Your task to perform on an android device: Add lg ultragear to the cart on amazon, then select checkout. Image 0: 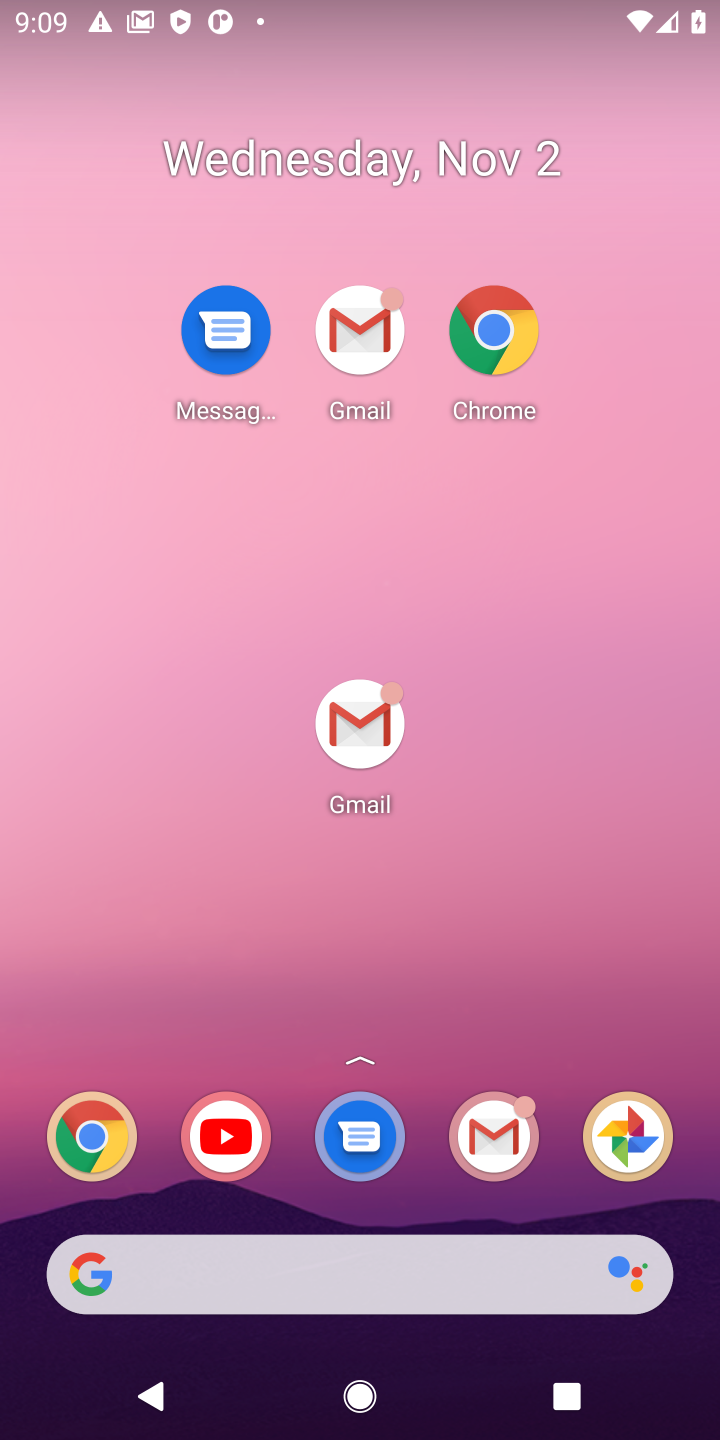
Step 0: drag from (175, 800) to (175, 571)
Your task to perform on an android device: Add lg ultragear to the cart on amazon, then select checkout. Image 1: 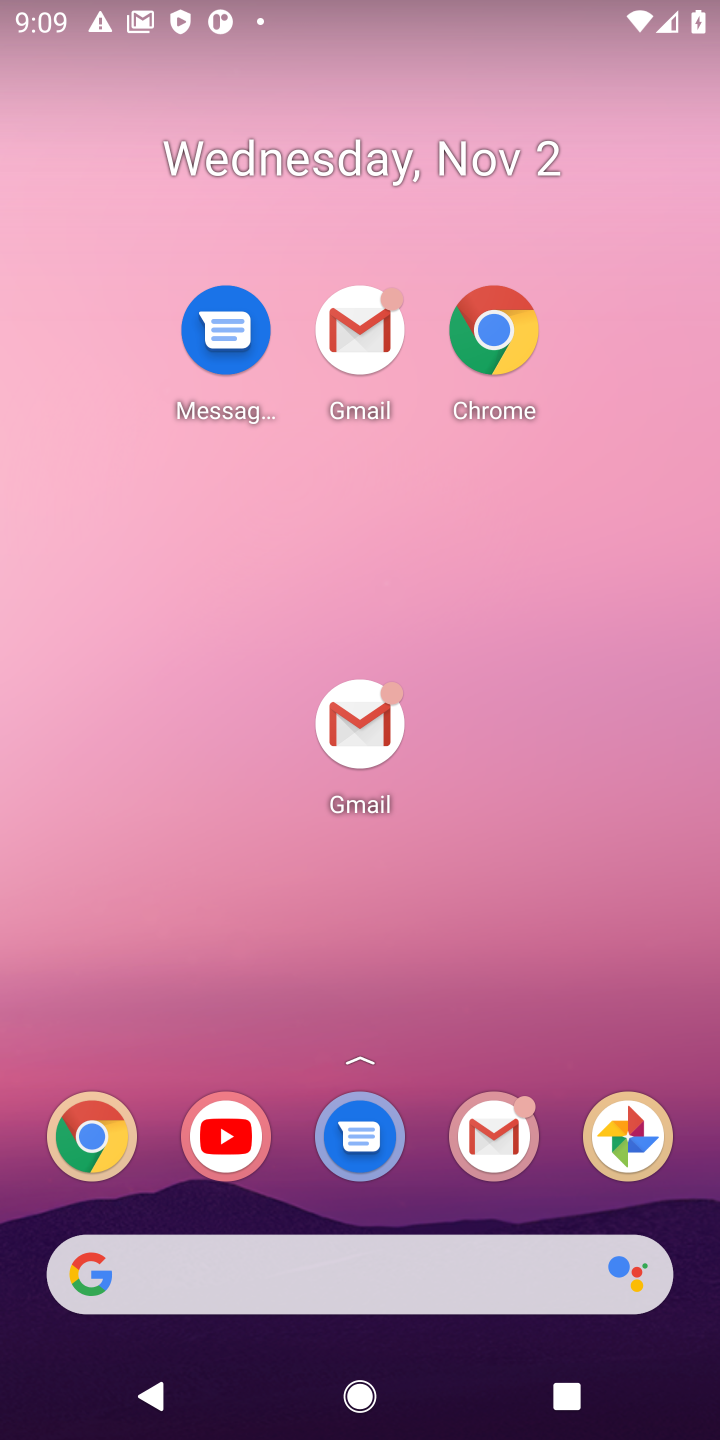
Step 1: drag from (218, 916) to (207, 162)
Your task to perform on an android device: Add lg ultragear to the cart on amazon, then select checkout. Image 2: 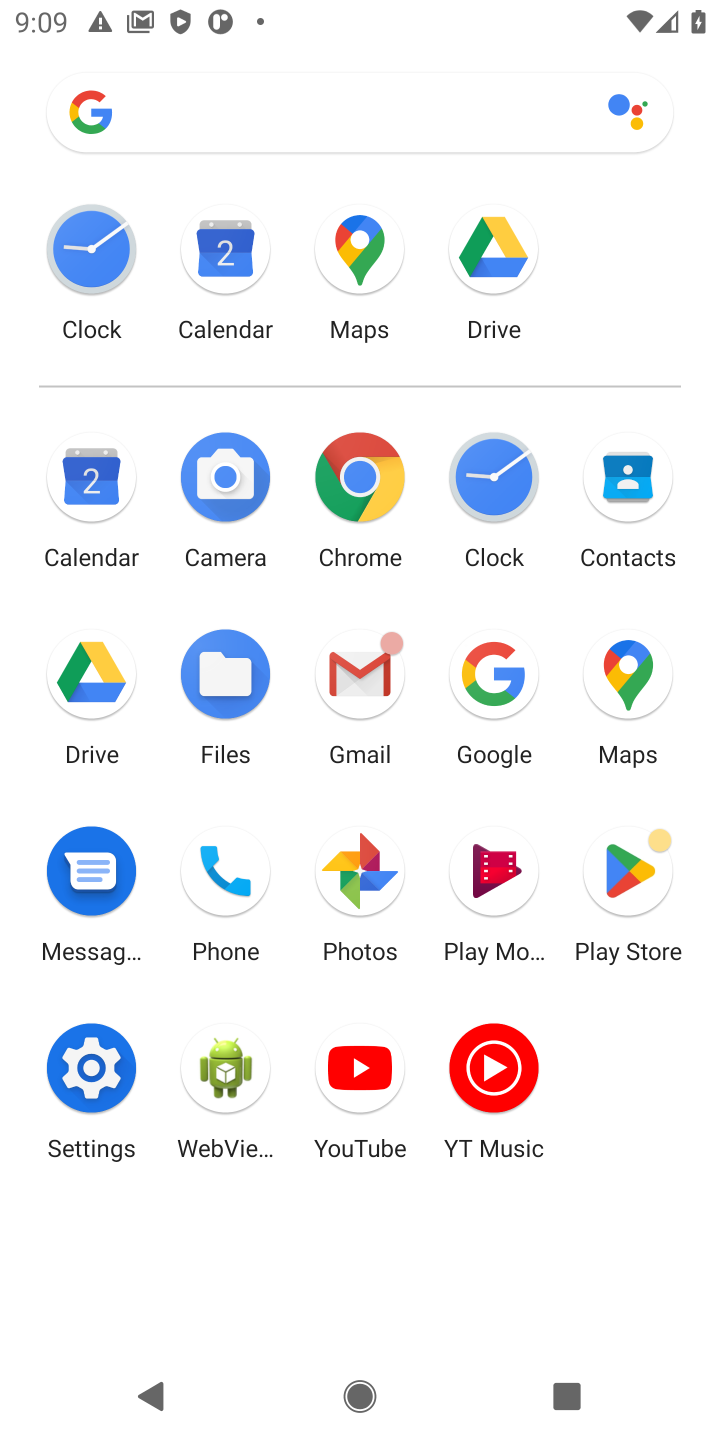
Step 2: click (492, 663)
Your task to perform on an android device: Add lg ultragear to the cart on amazon, then select checkout. Image 3: 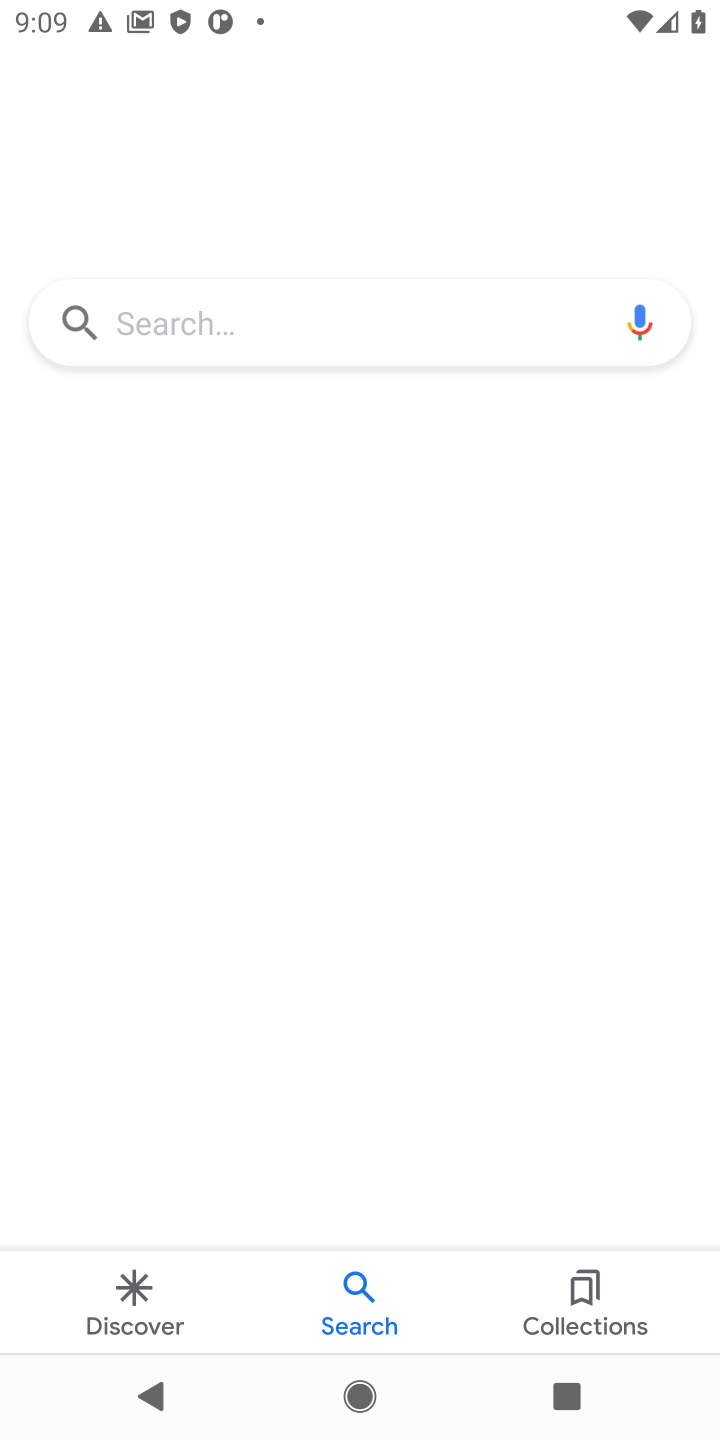
Step 3: click (276, 309)
Your task to perform on an android device: Add lg ultragear to the cart on amazon, then select checkout. Image 4: 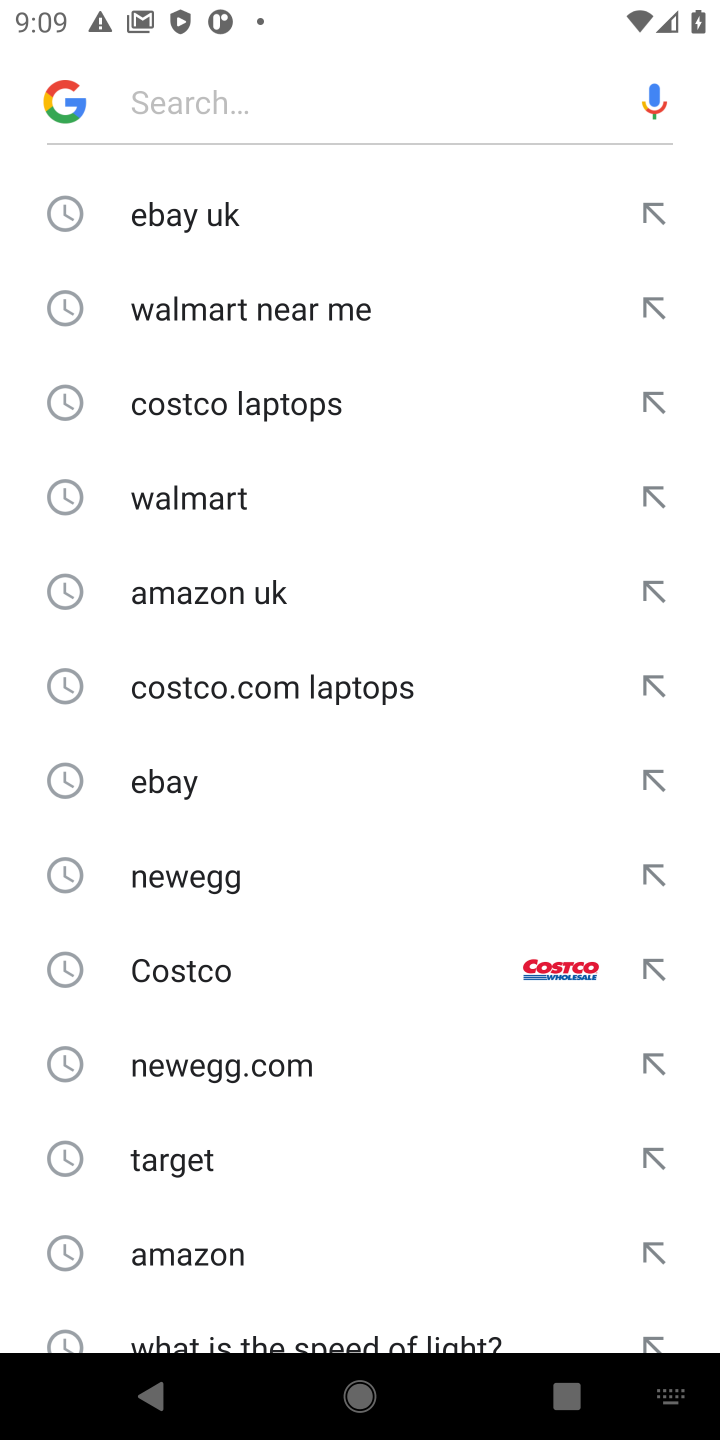
Step 4: type "amazon "
Your task to perform on an android device: Add lg ultragear to the cart on amazon, then select checkout. Image 5: 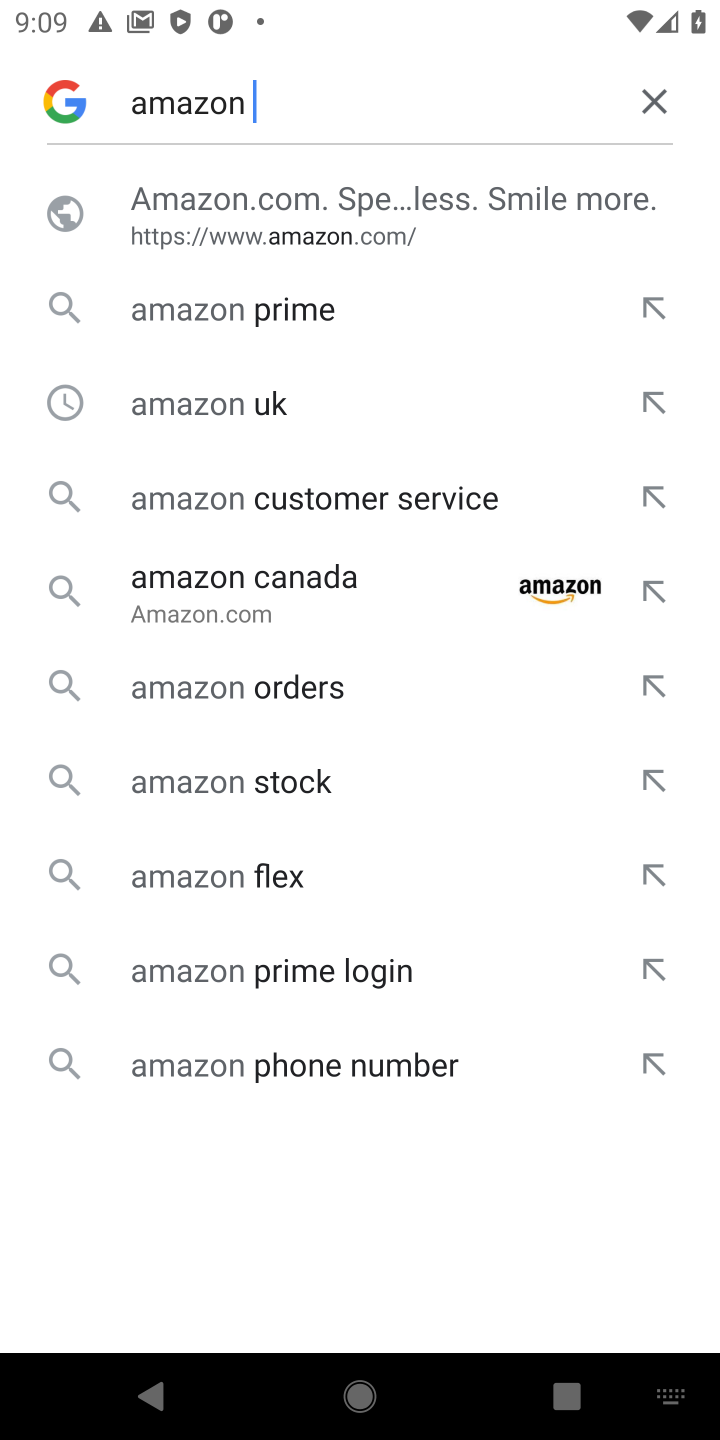
Step 5: click (325, 189)
Your task to perform on an android device: Add lg ultragear to the cart on amazon, then select checkout. Image 6: 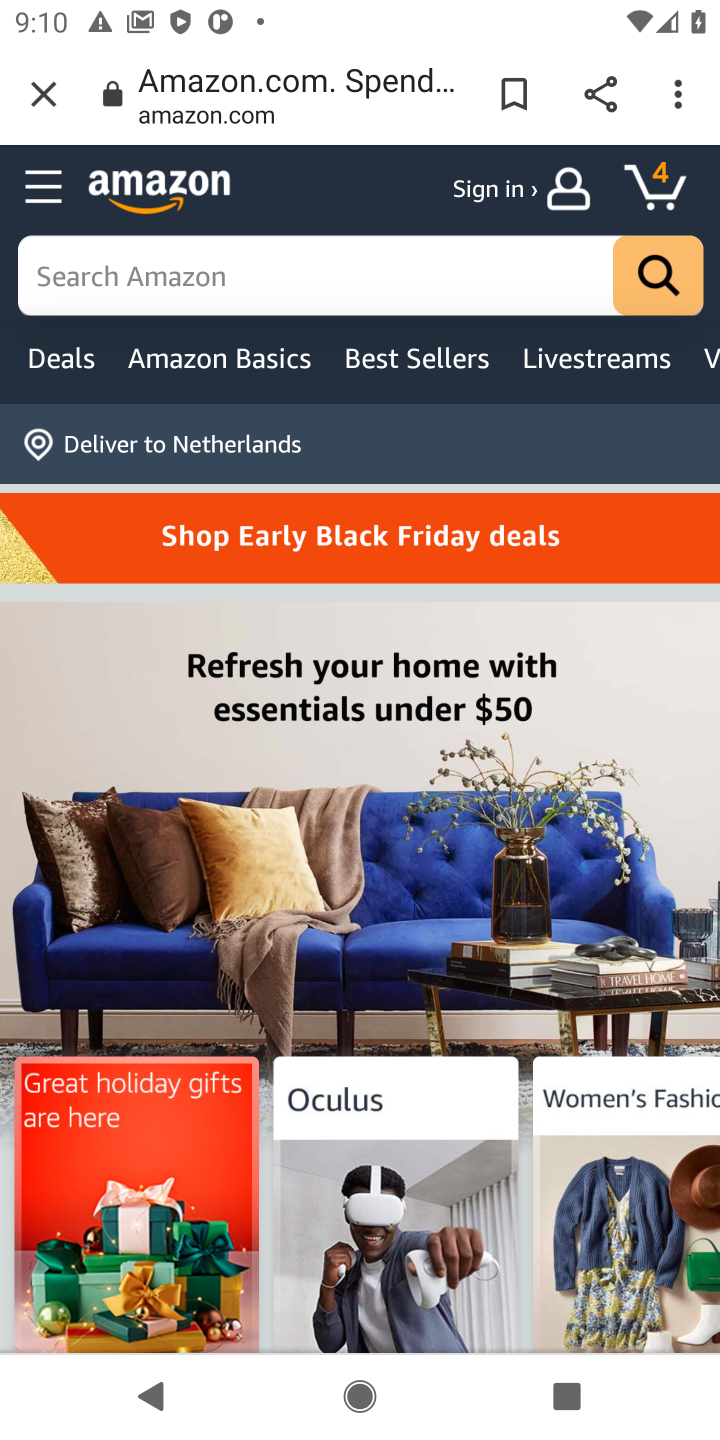
Step 6: click (270, 266)
Your task to perform on an android device: Add lg ultragear to the cart on amazon, then select checkout. Image 7: 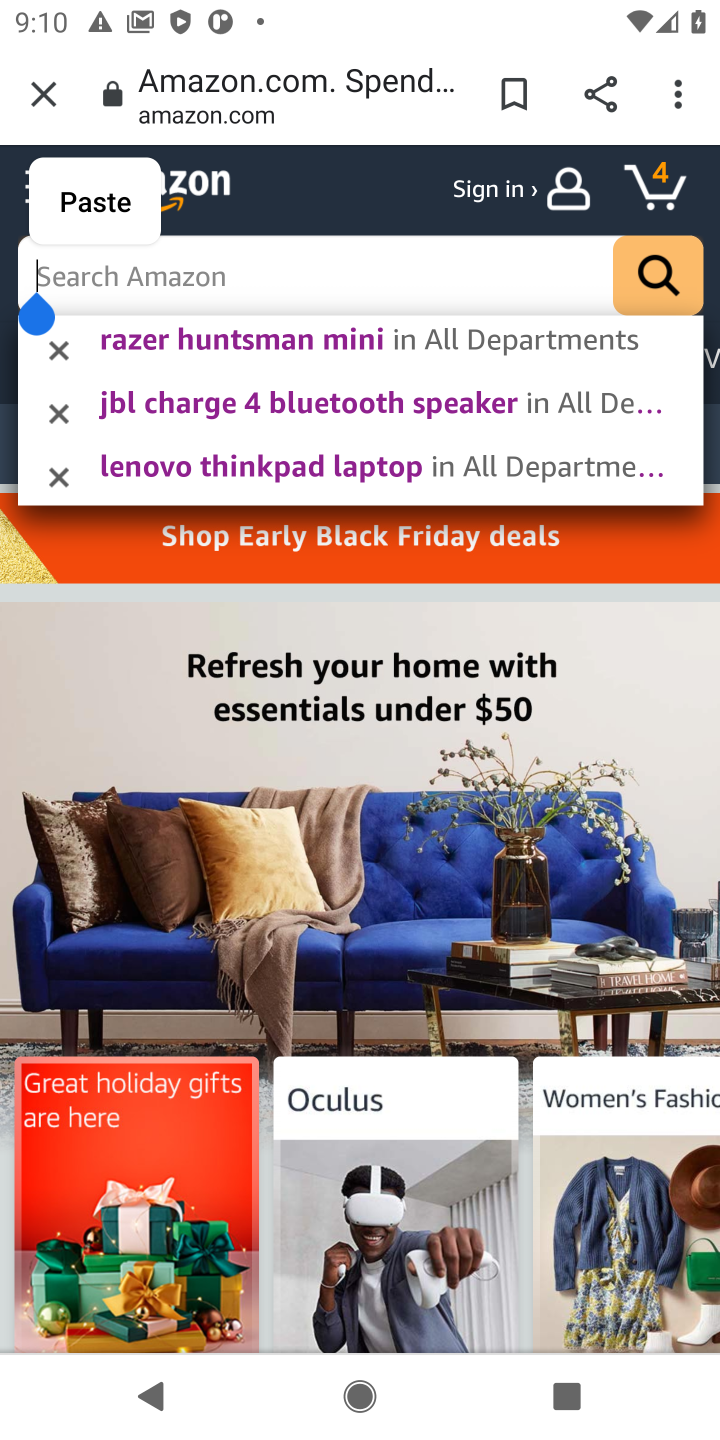
Step 7: click (354, 250)
Your task to perform on an android device: Add lg ultragear to the cart on amazon, then select checkout. Image 8: 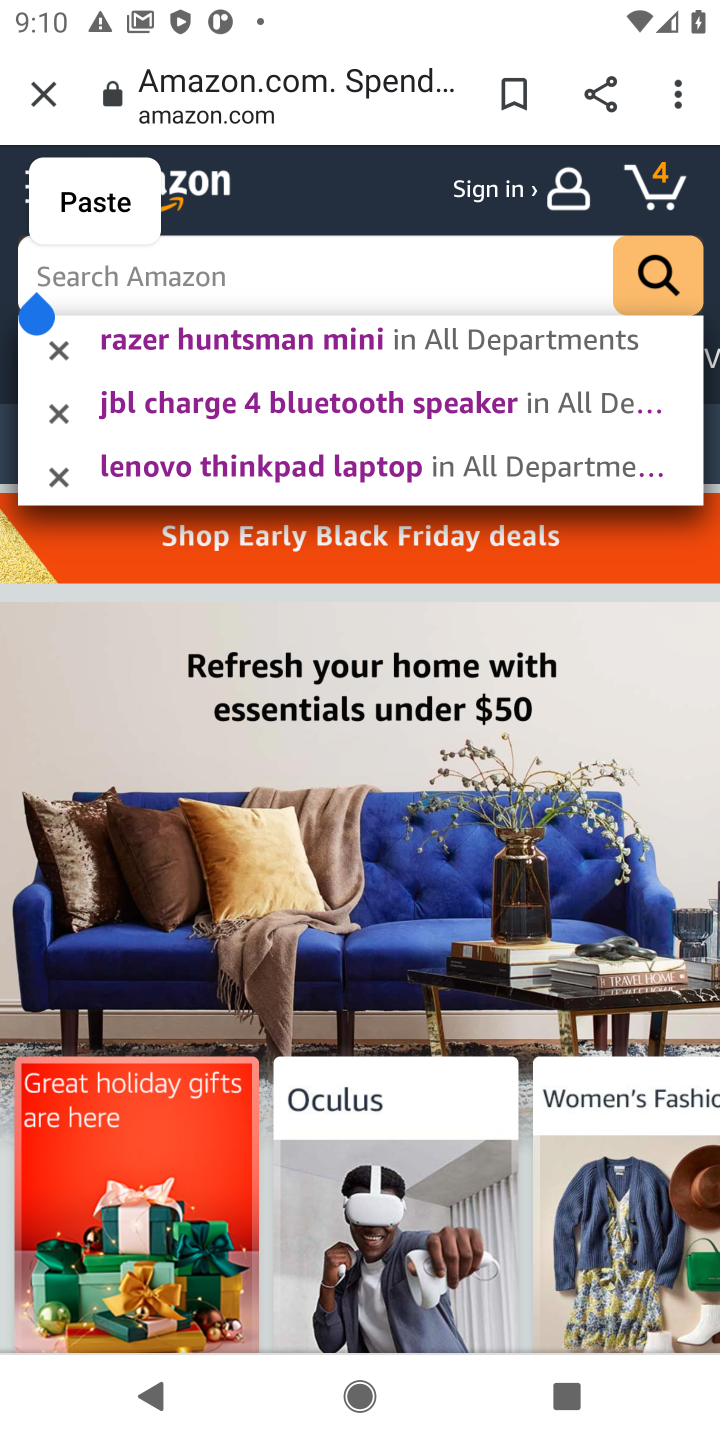
Step 8: type " lg ultragear "
Your task to perform on an android device: Add lg ultragear to the cart on amazon, then select checkout. Image 9: 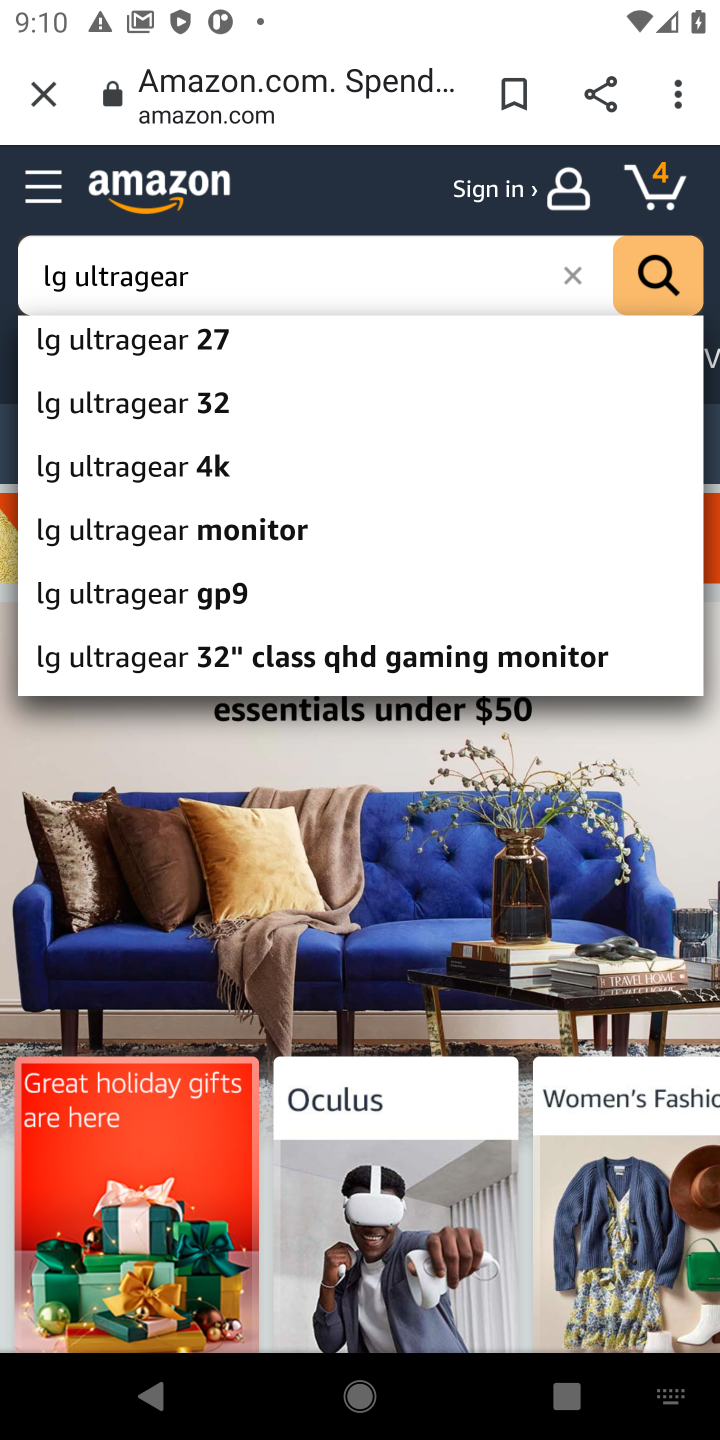
Step 9: click (220, 349)
Your task to perform on an android device: Add lg ultragear to the cart on amazon, then select checkout. Image 10: 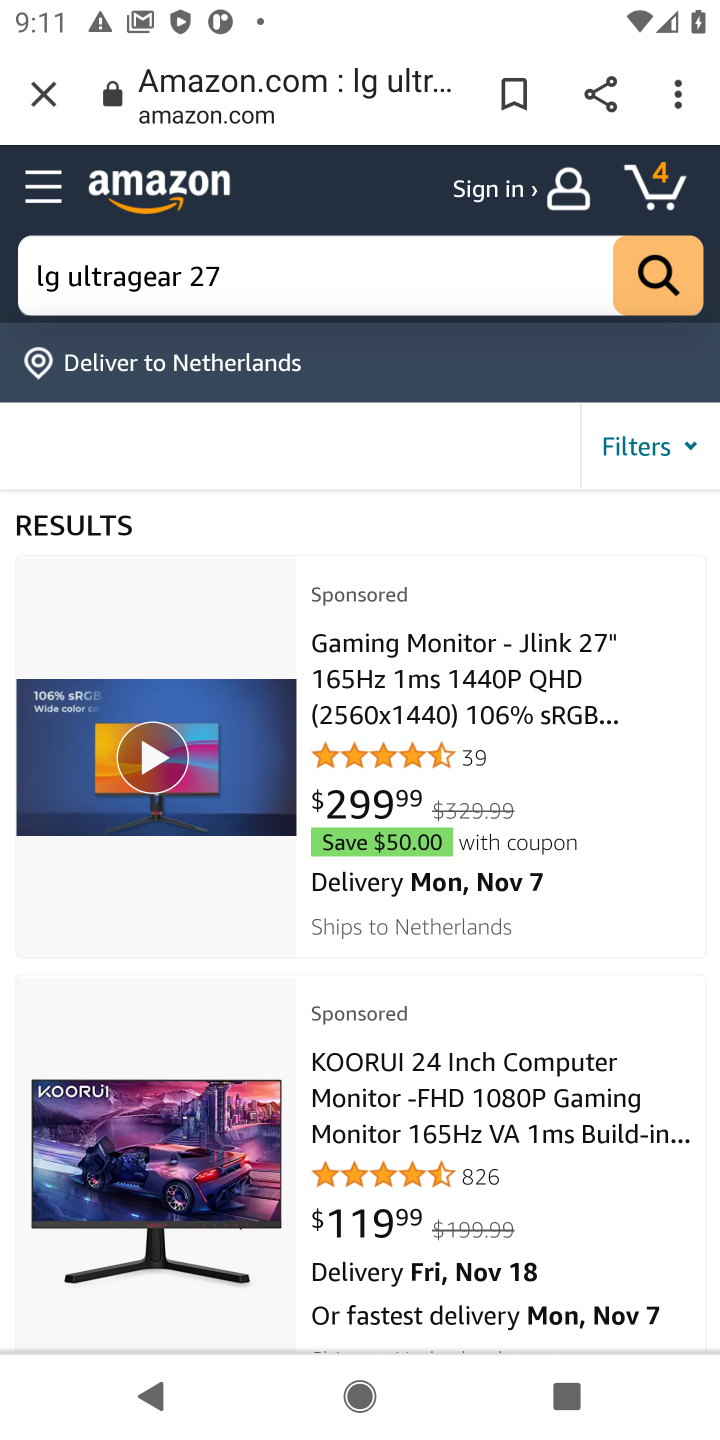
Step 10: click (660, 280)
Your task to perform on an android device: Add lg ultragear to the cart on amazon, then select checkout. Image 11: 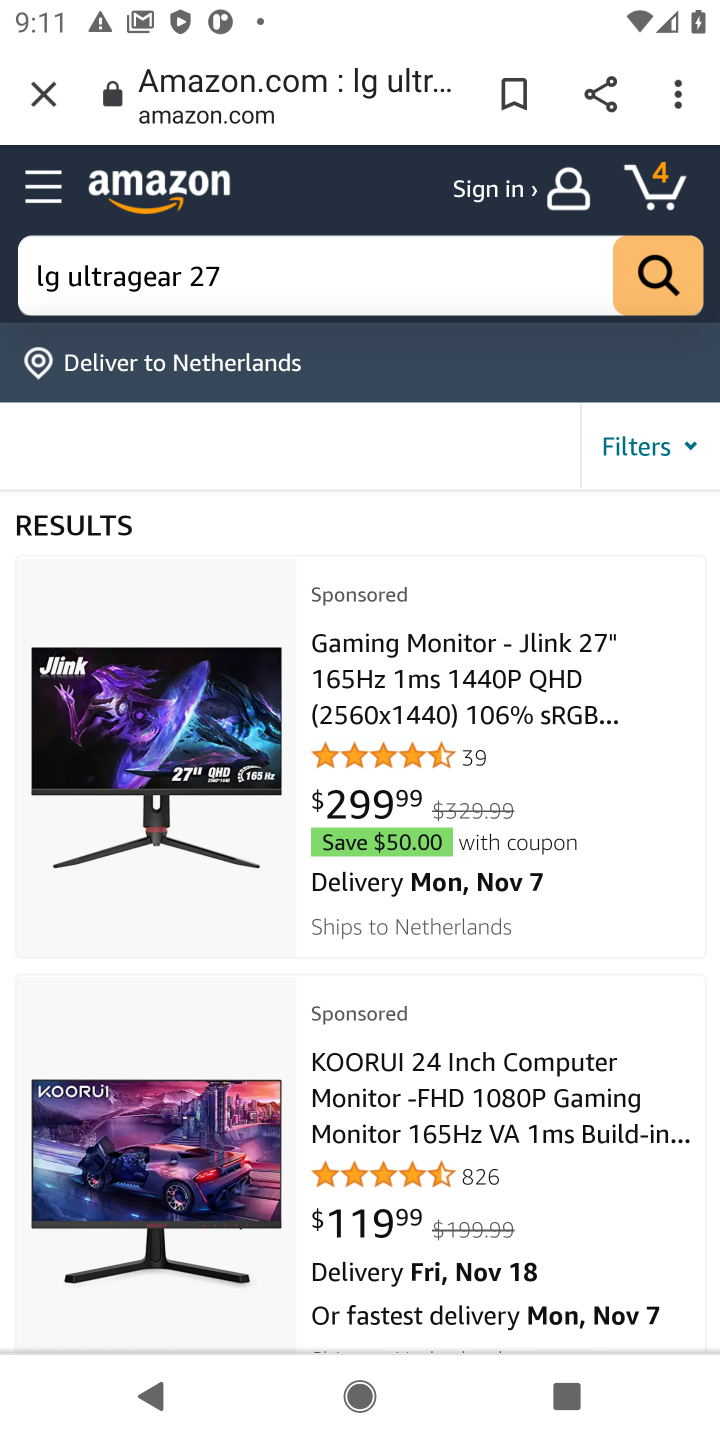
Step 11: click (660, 283)
Your task to perform on an android device: Add lg ultragear to the cart on amazon, then select checkout. Image 12: 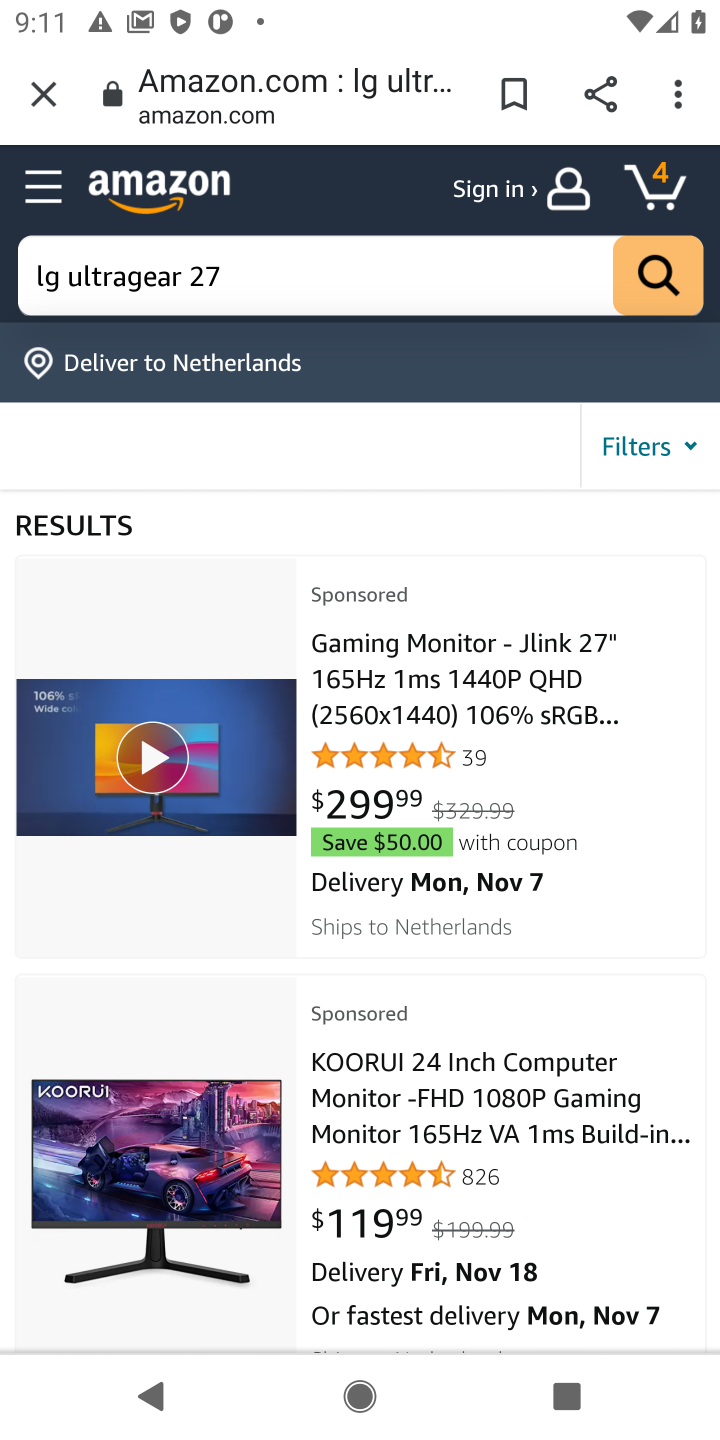
Step 12: drag from (406, 1210) to (444, 495)
Your task to perform on an android device: Add lg ultragear to the cart on amazon, then select checkout. Image 13: 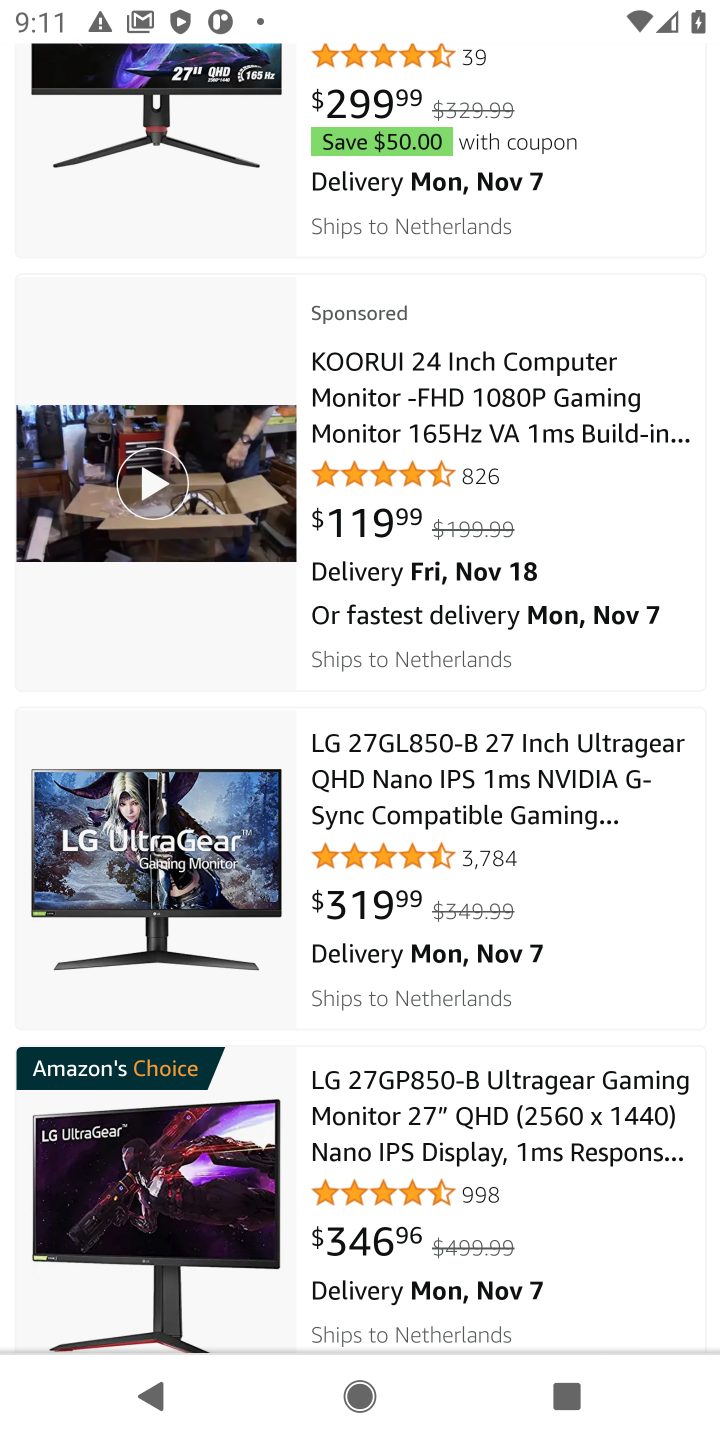
Step 13: click (665, 80)
Your task to perform on an android device: Add lg ultragear to the cart on amazon, then select checkout. Image 14: 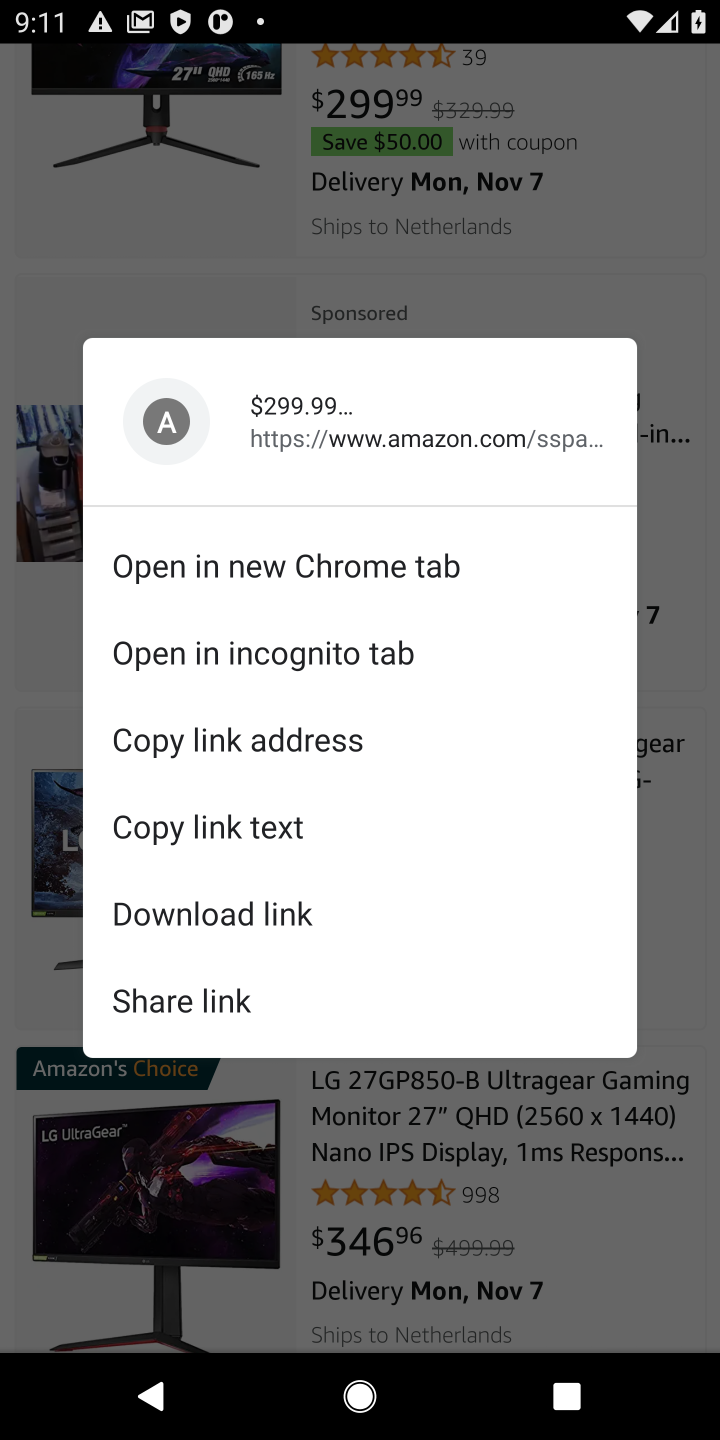
Step 14: click (590, 142)
Your task to perform on an android device: Add lg ultragear to the cart on amazon, then select checkout. Image 15: 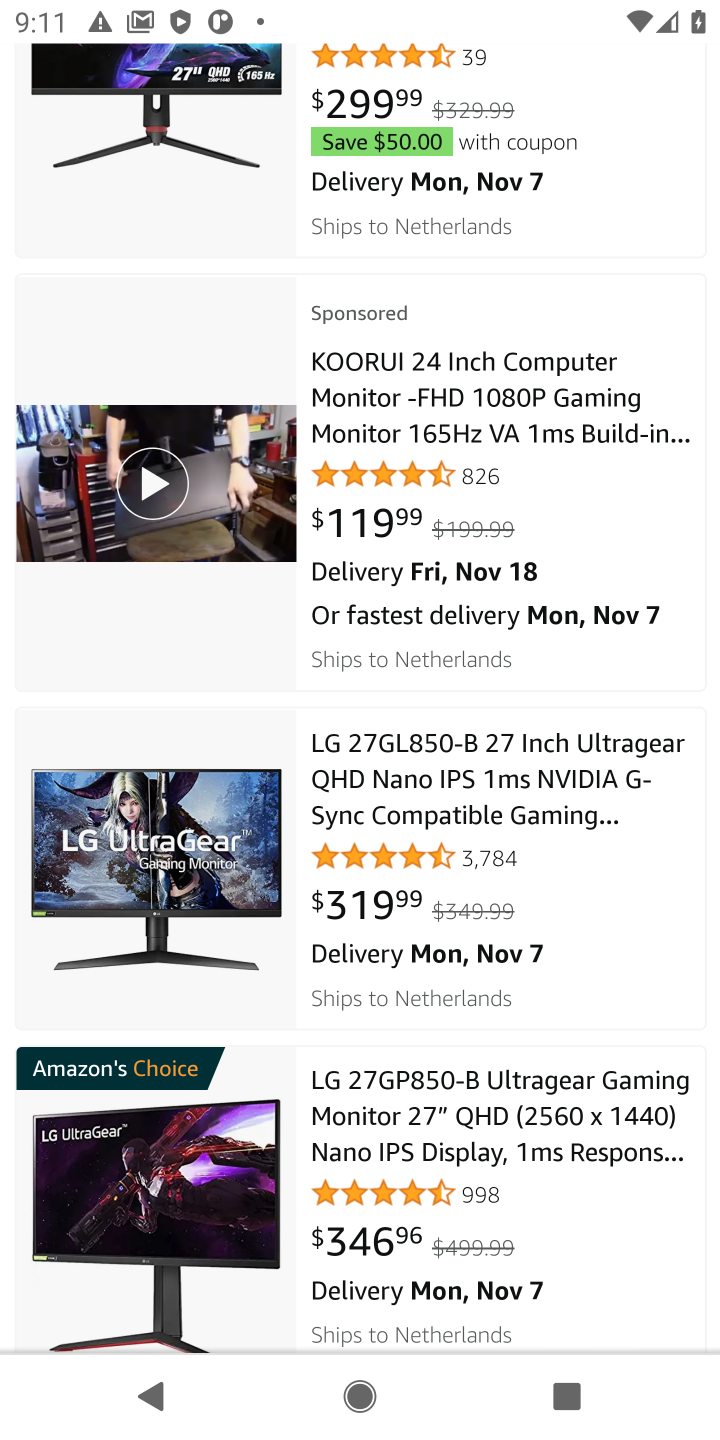
Step 15: drag from (431, 188) to (391, 1119)
Your task to perform on an android device: Add lg ultragear to the cart on amazon, then select checkout. Image 16: 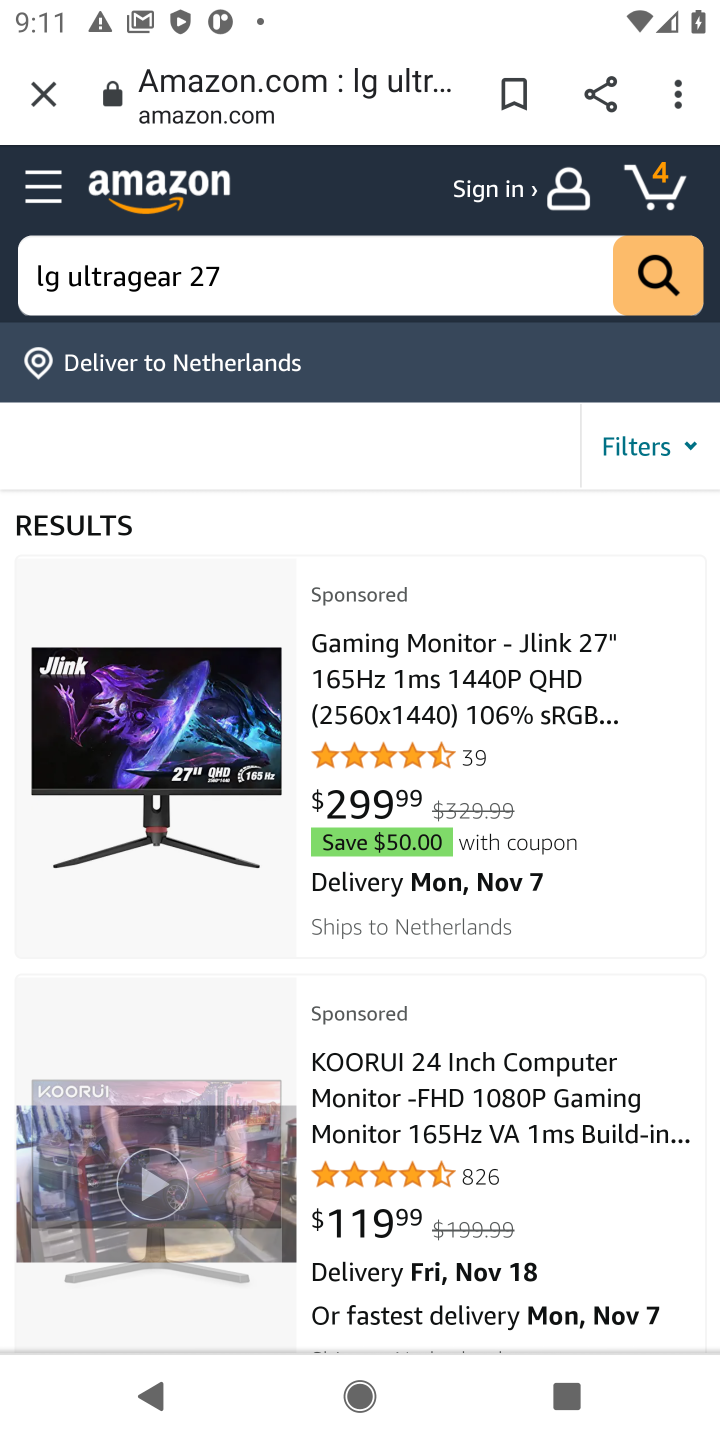
Step 16: drag from (235, 378) to (209, 1311)
Your task to perform on an android device: Add lg ultragear to the cart on amazon, then select checkout. Image 17: 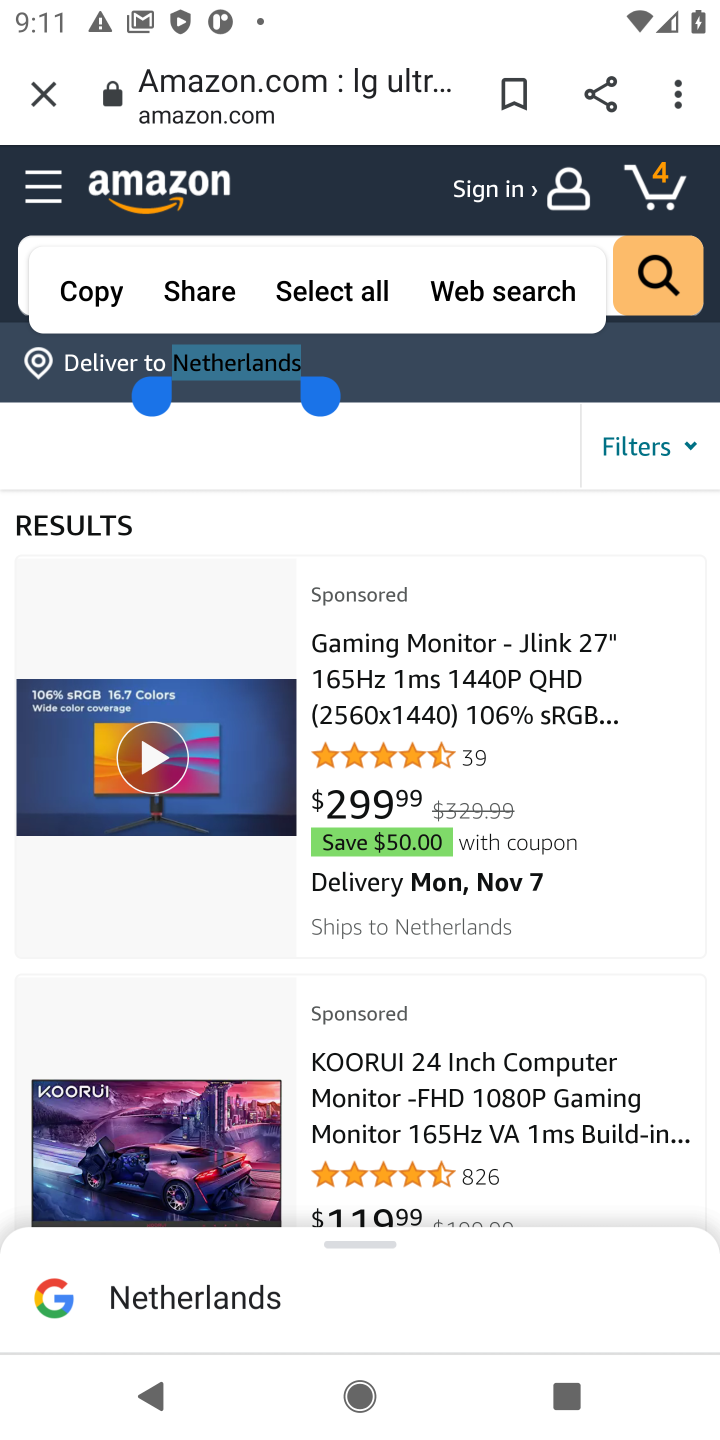
Step 17: click (449, 259)
Your task to perform on an android device: Add lg ultragear to the cart on amazon, then select checkout. Image 18: 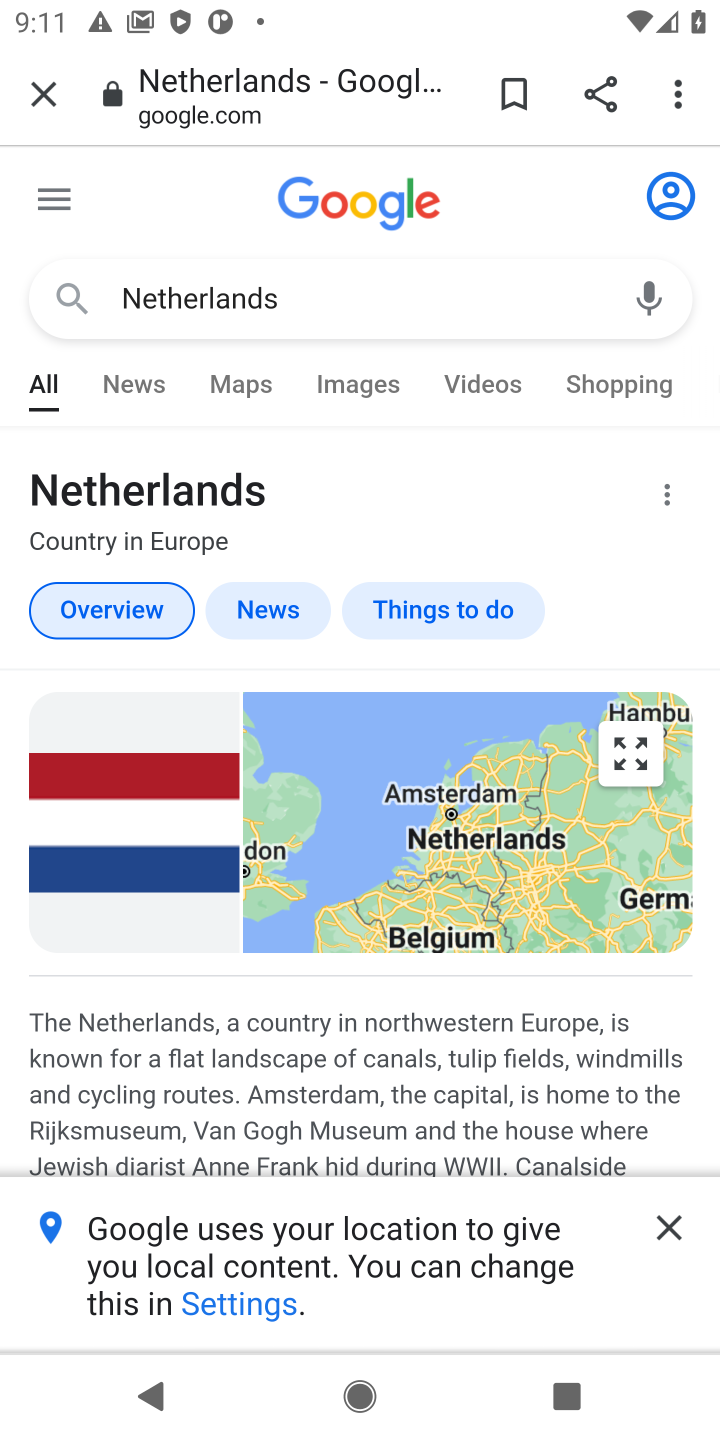
Step 18: click (369, 308)
Your task to perform on an android device: Add lg ultragear to the cart on amazon, then select checkout. Image 19: 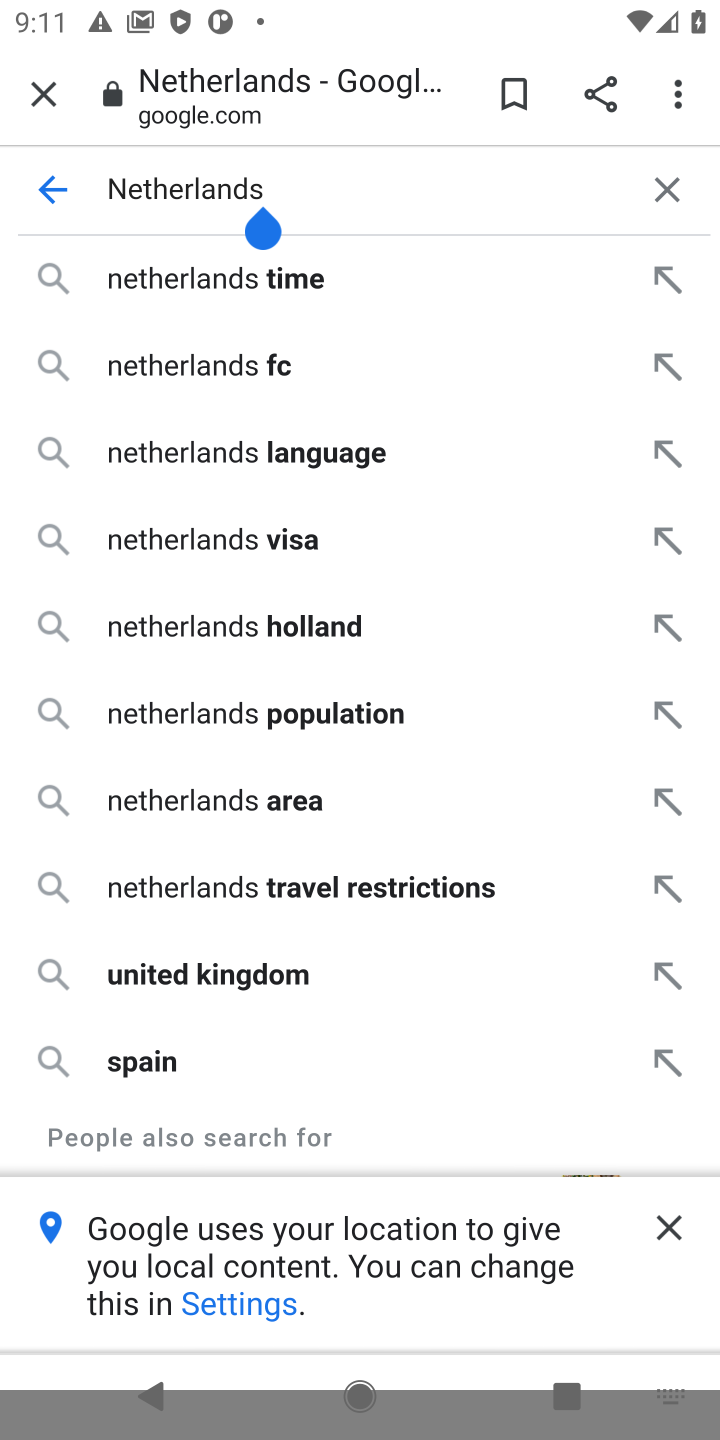
Step 19: click (356, 287)
Your task to perform on an android device: Add lg ultragear to the cart on amazon, then select checkout. Image 20: 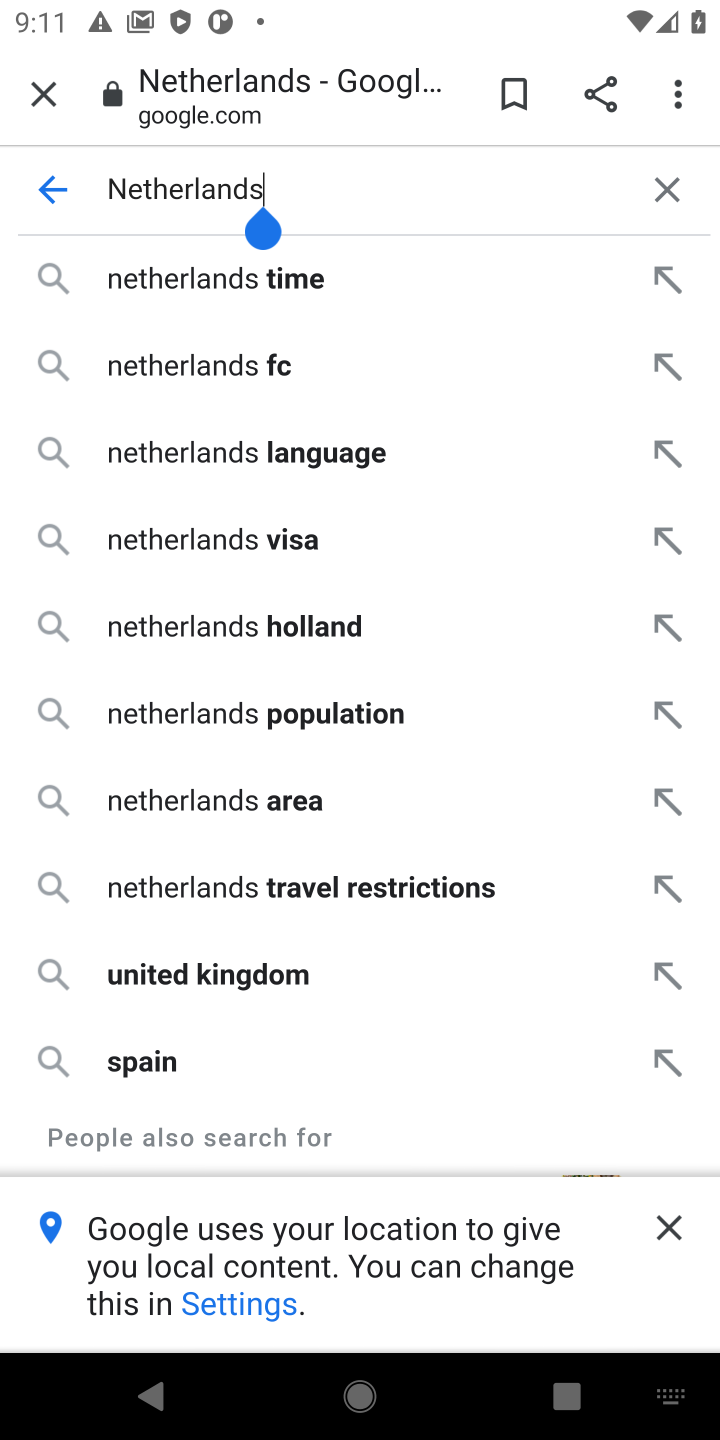
Step 20: click (654, 177)
Your task to perform on an android device: Add lg ultragear to the cart on amazon, then select checkout. Image 21: 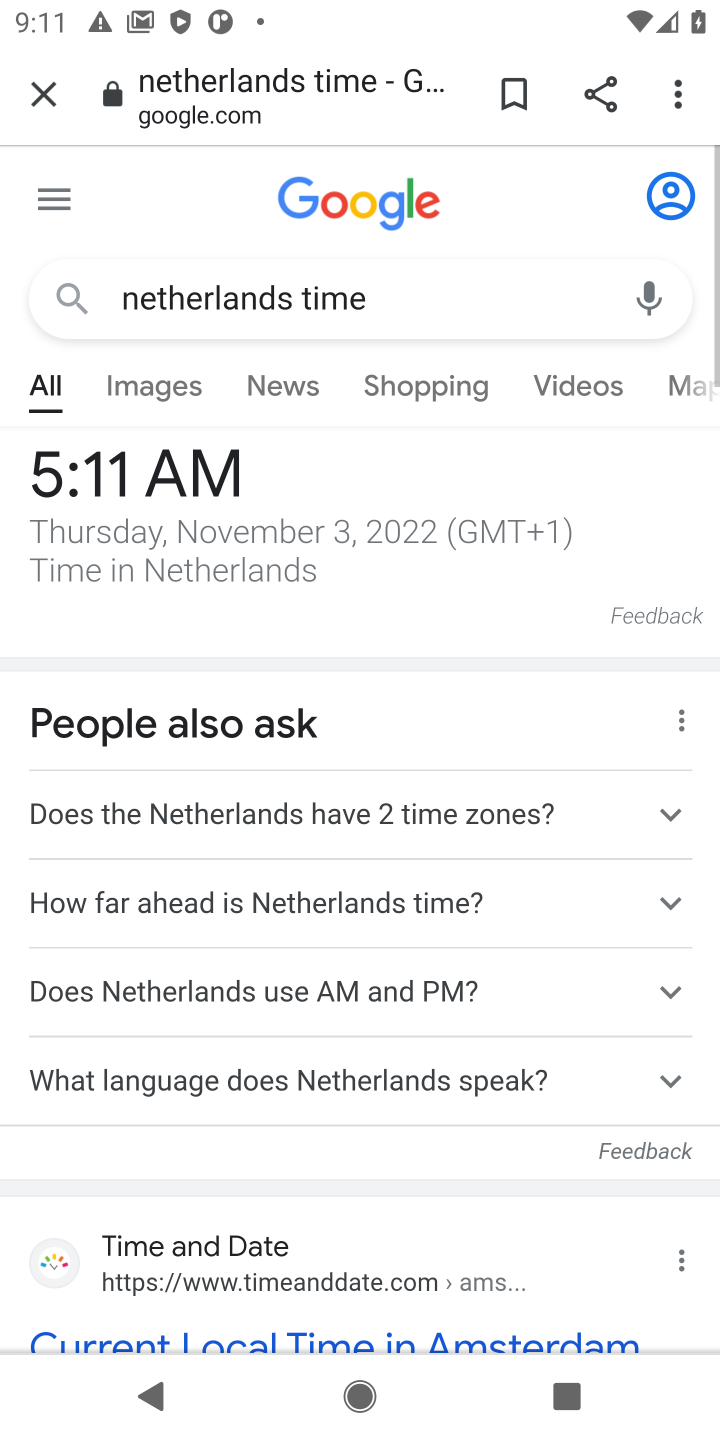
Step 21: click (39, 193)
Your task to perform on an android device: Add lg ultragear to the cart on amazon, then select checkout. Image 22: 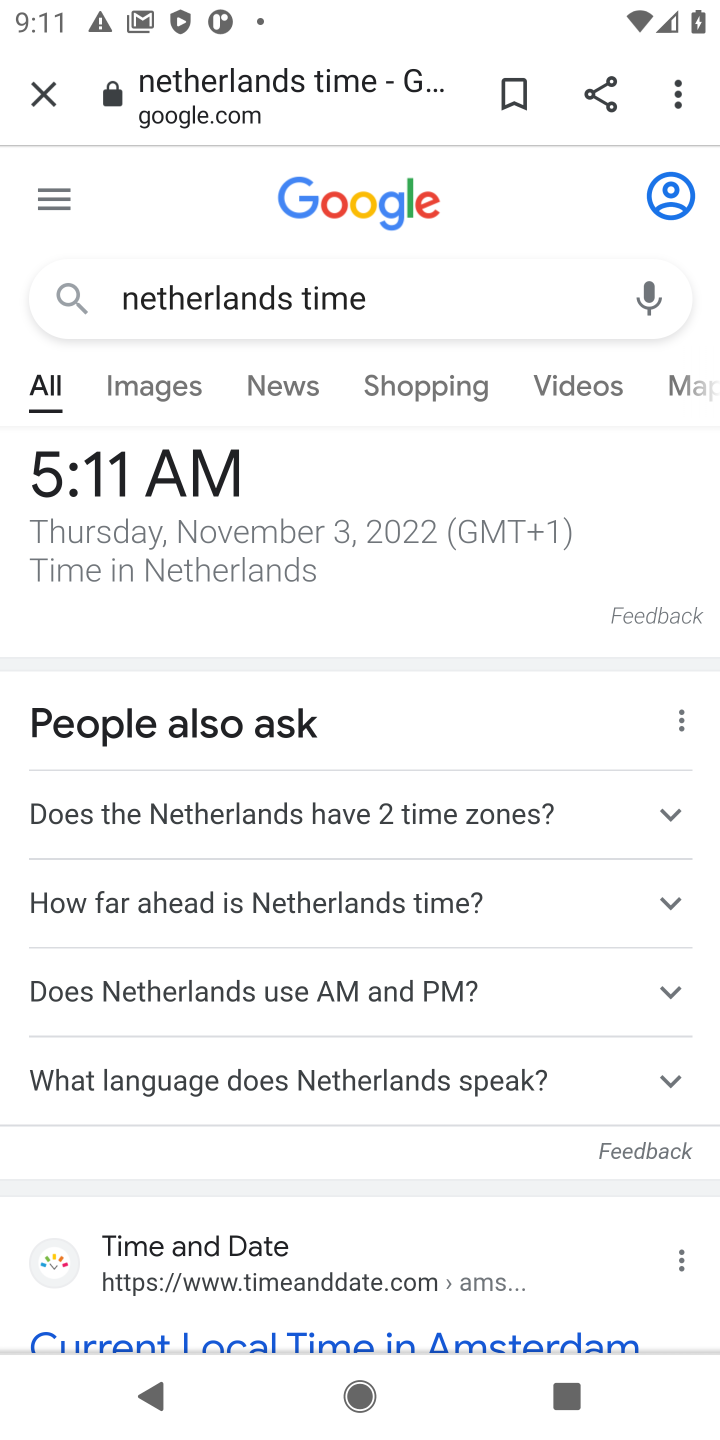
Step 22: click (39, 193)
Your task to perform on an android device: Add lg ultragear to the cart on amazon, then select checkout. Image 23: 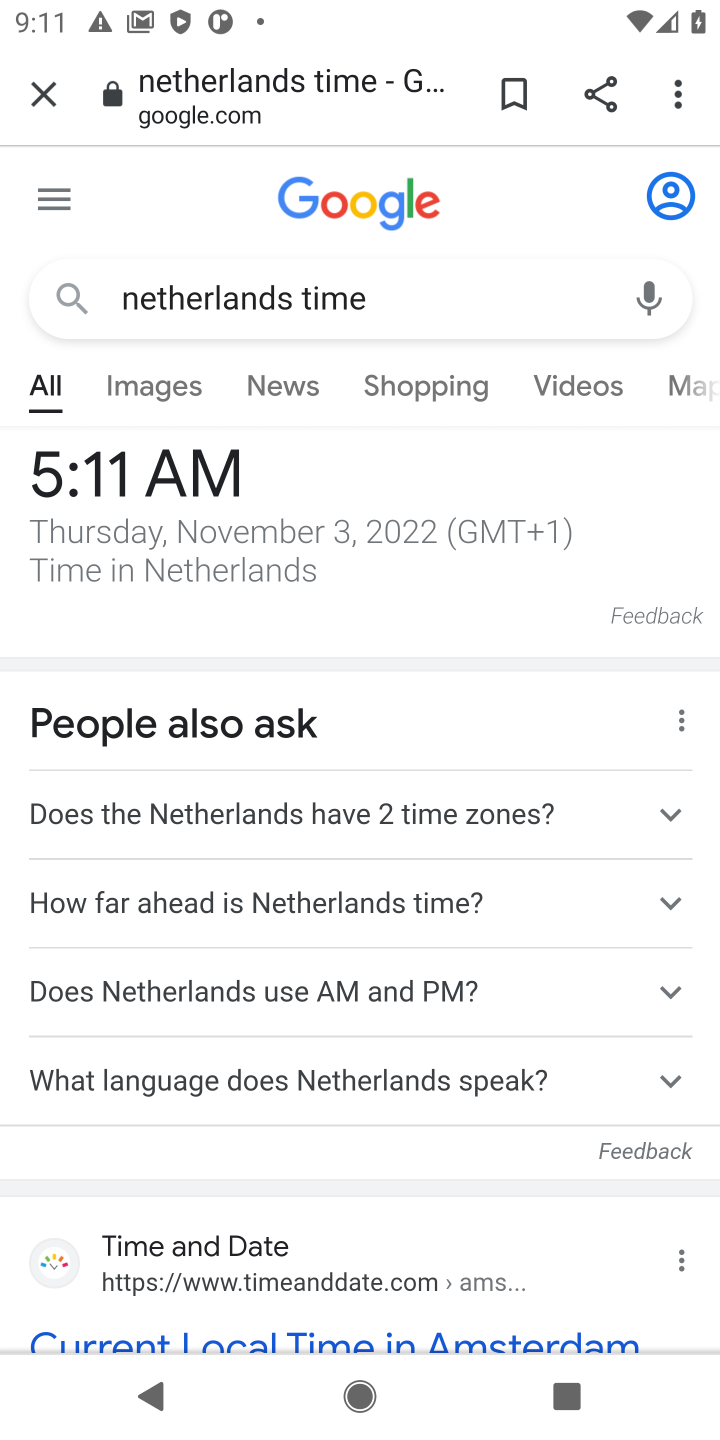
Step 23: click (39, 193)
Your task to perform on an android device: Add lg ultragear to the cart on amazon, then select checkout. Image 24: 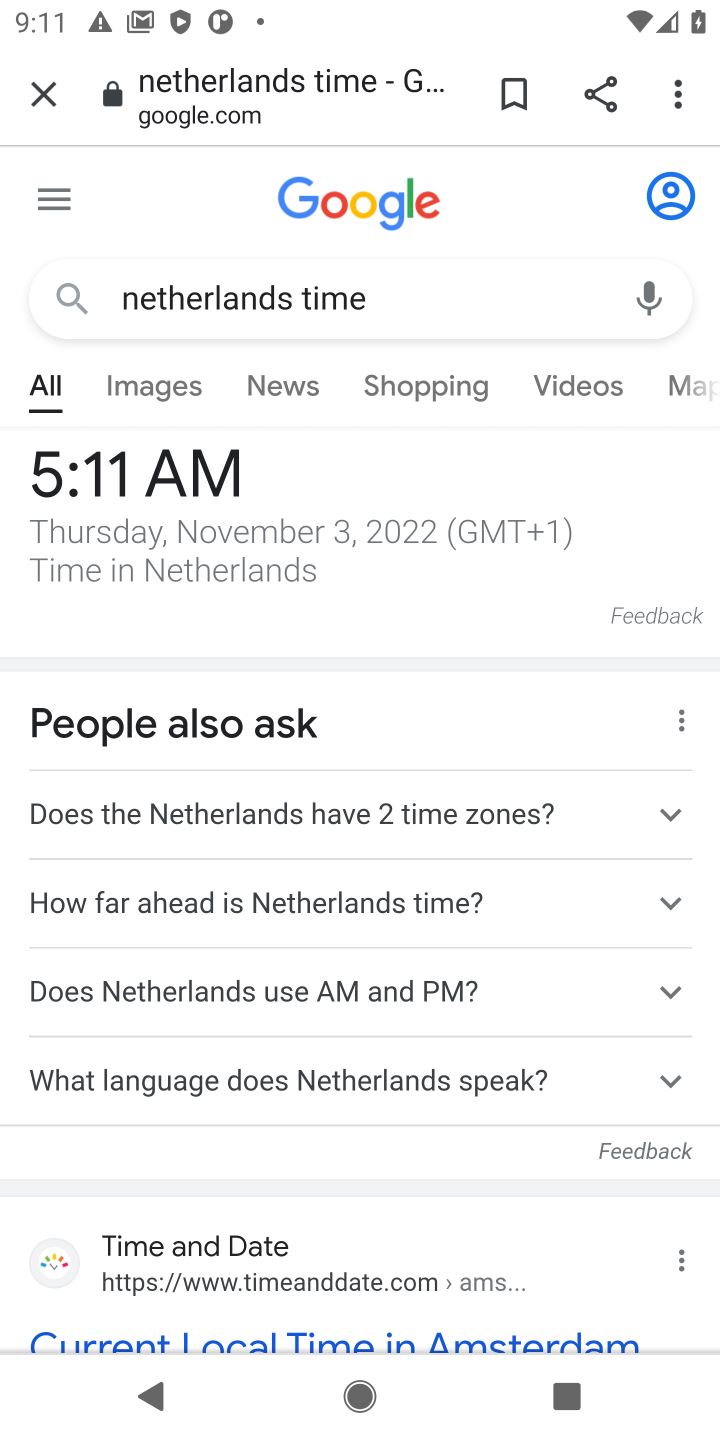
Step 24: click (38, 93)
Your task to perform on an android device: Add lg ultragear to the cart on amazon, then select checkout. Image 25: 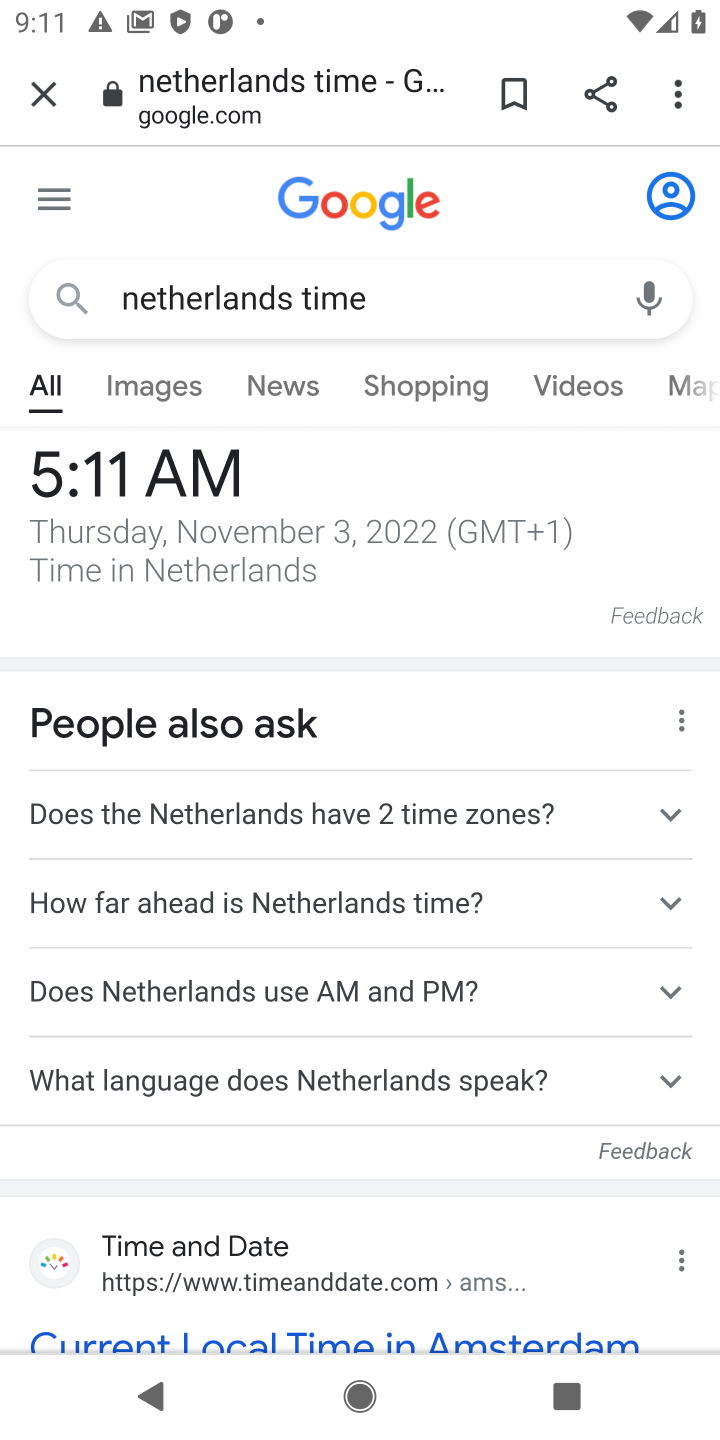
Step 25: click (370, 288)
Your task to perform on an android device: Add lg ultragear to the cart on amazon, then select checkout. Image 26: 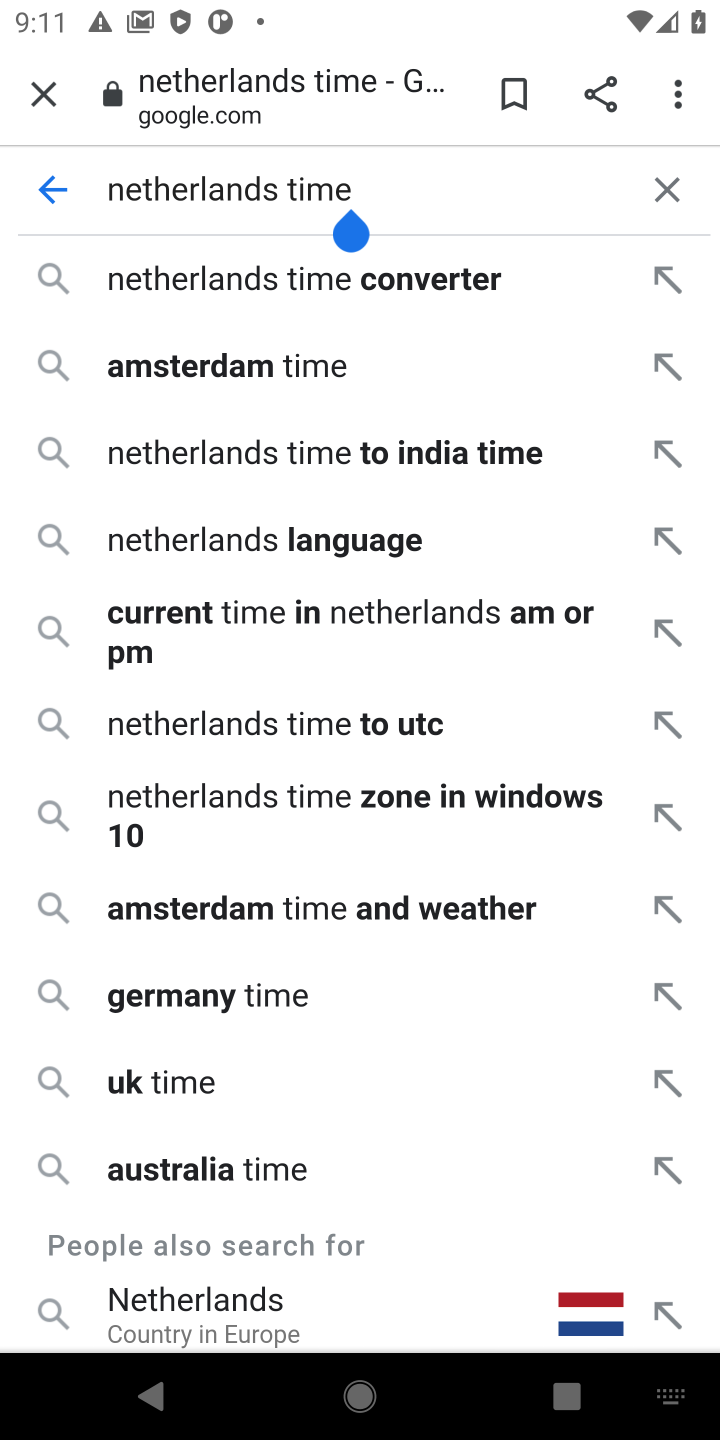
Step 26: click (654, 190)
Your task to perform on an android device: Add lg ultragear to the cart on amazon, then select checkout. Image 27: 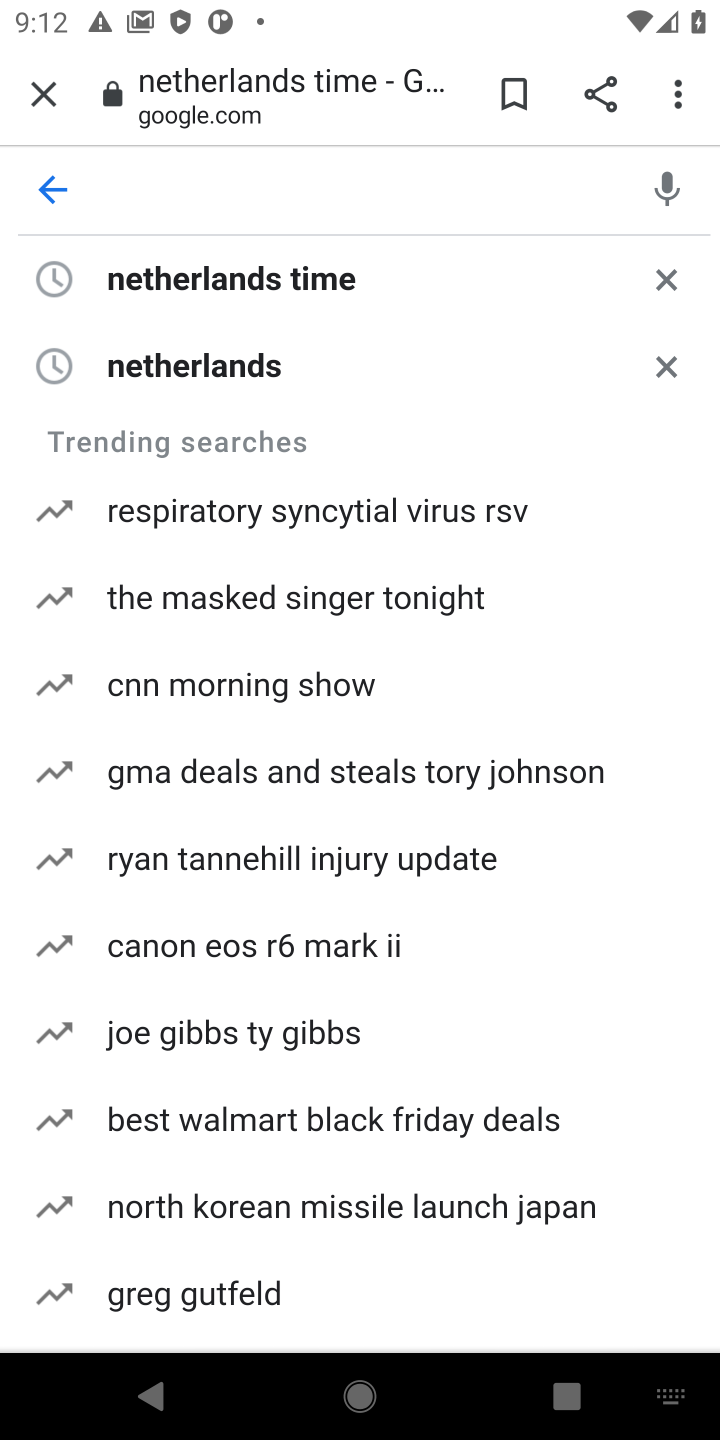
Step 27: click (373, 185)
Your task to perform on an android device: Add lg ultragear to the cart on amazon, then select checkout. Image 28: 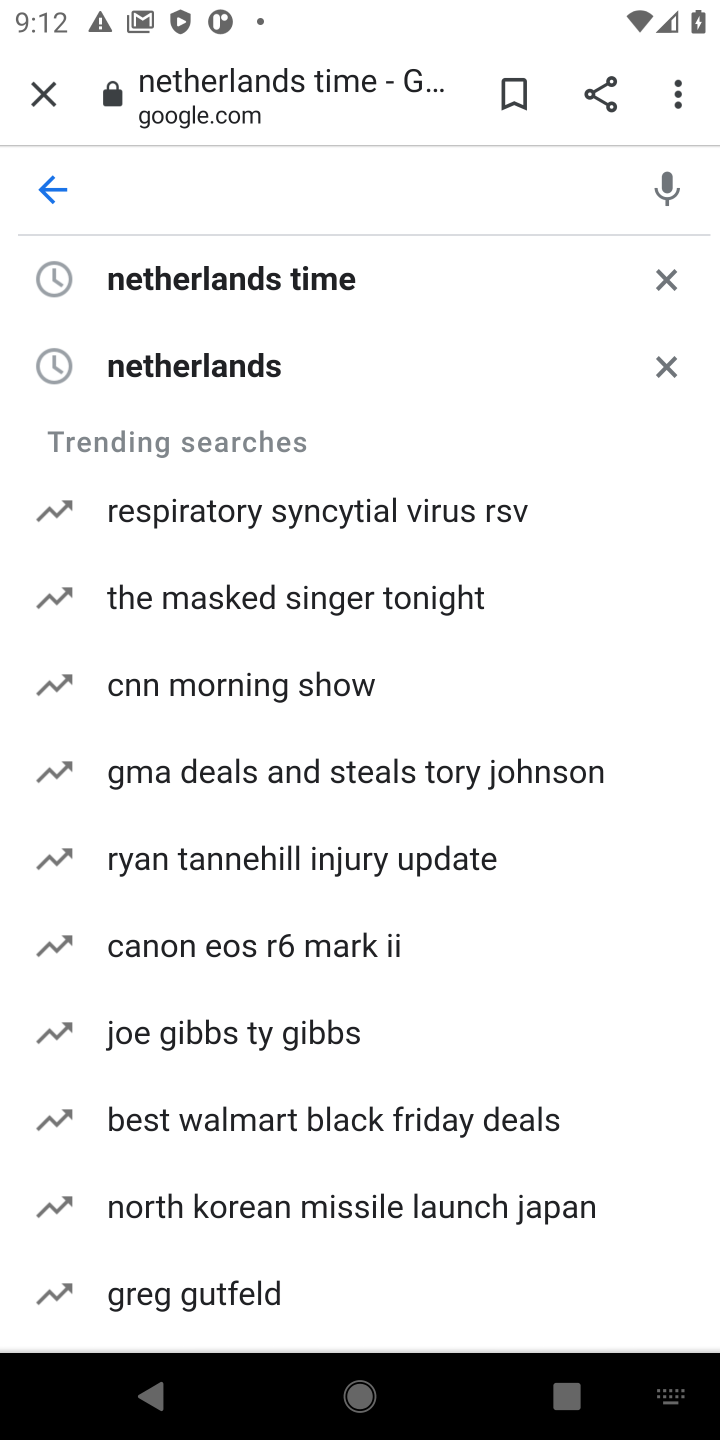
Step 28: type "amazon "
Your task to perform on an android device: Add lg ultragear to the cart on amazon, then select checkout. Image 29: 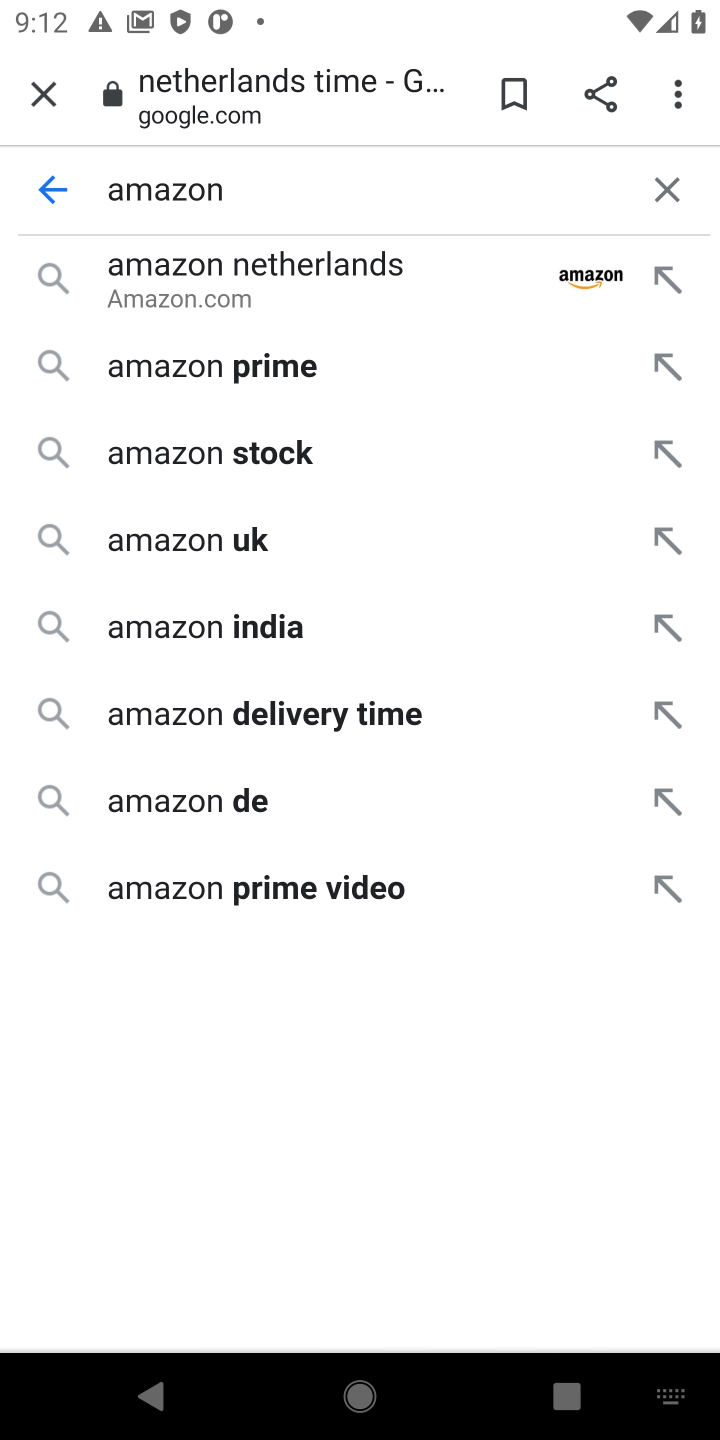
Step 29: click (245, 251)
Your task to perform on an android device: Add lg ultragear to the cart on amazon, then select checkout. Image 30: 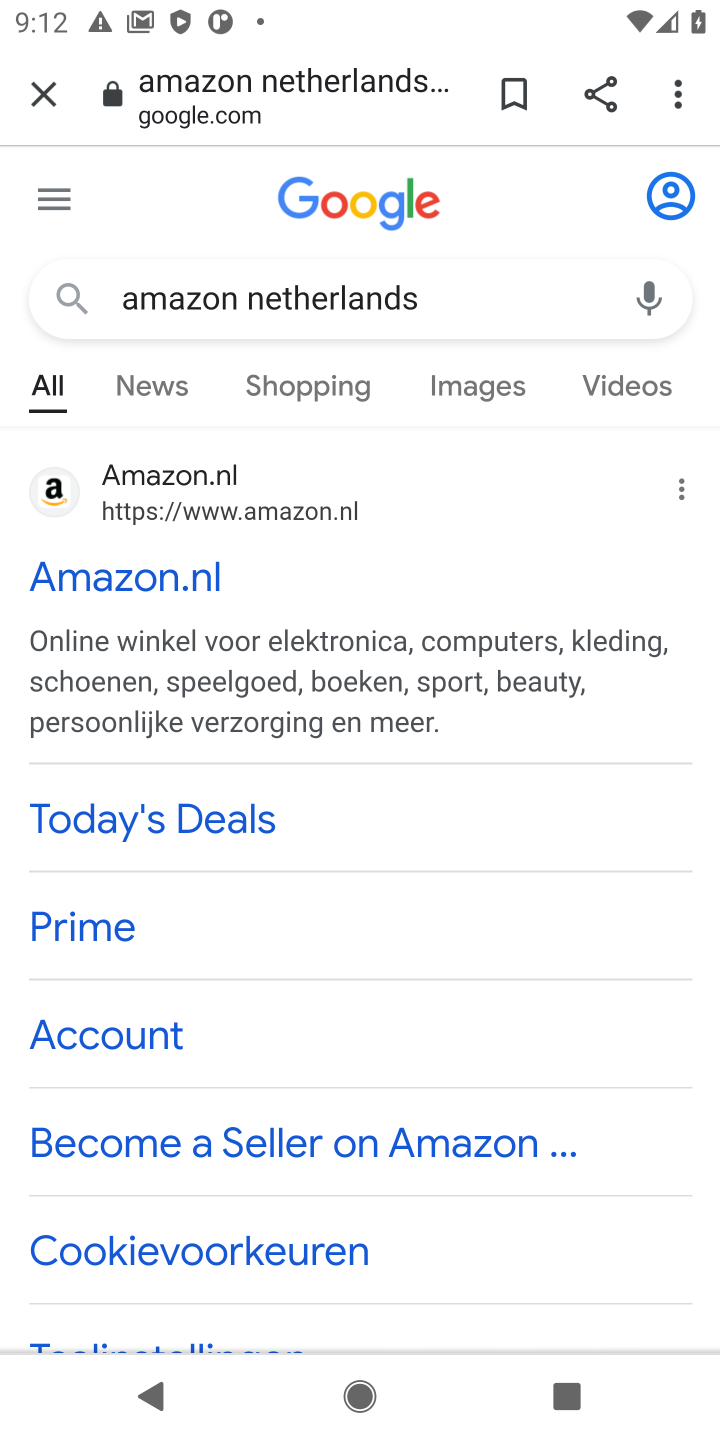
Step 30: click (52, 486)
Your task to perform on an android device: Add lg ultragear to the cart on amazon, then select checkout. Image 31: 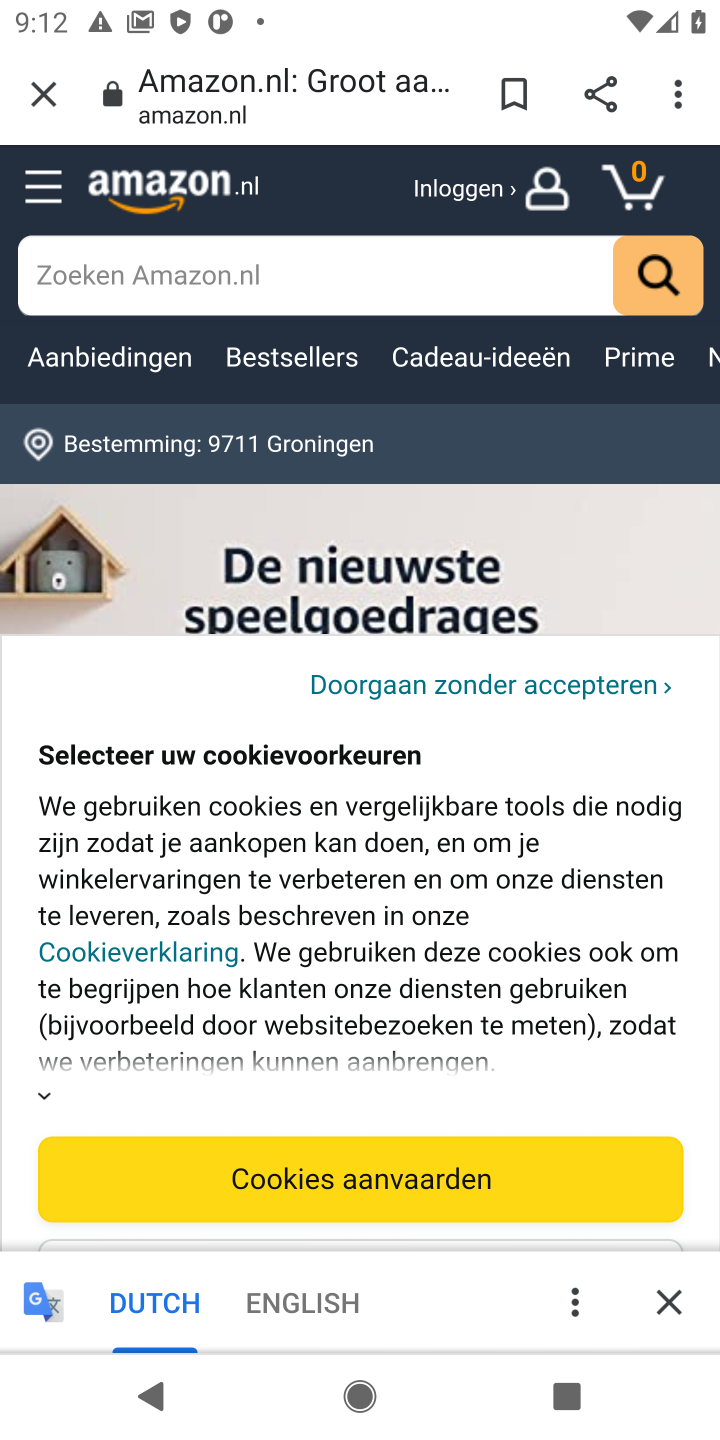
Step 31: click (365, 1183)
Your task to perform on an android device: Add lg ultragear to the cart on amazon, then select checkout. Image 32: 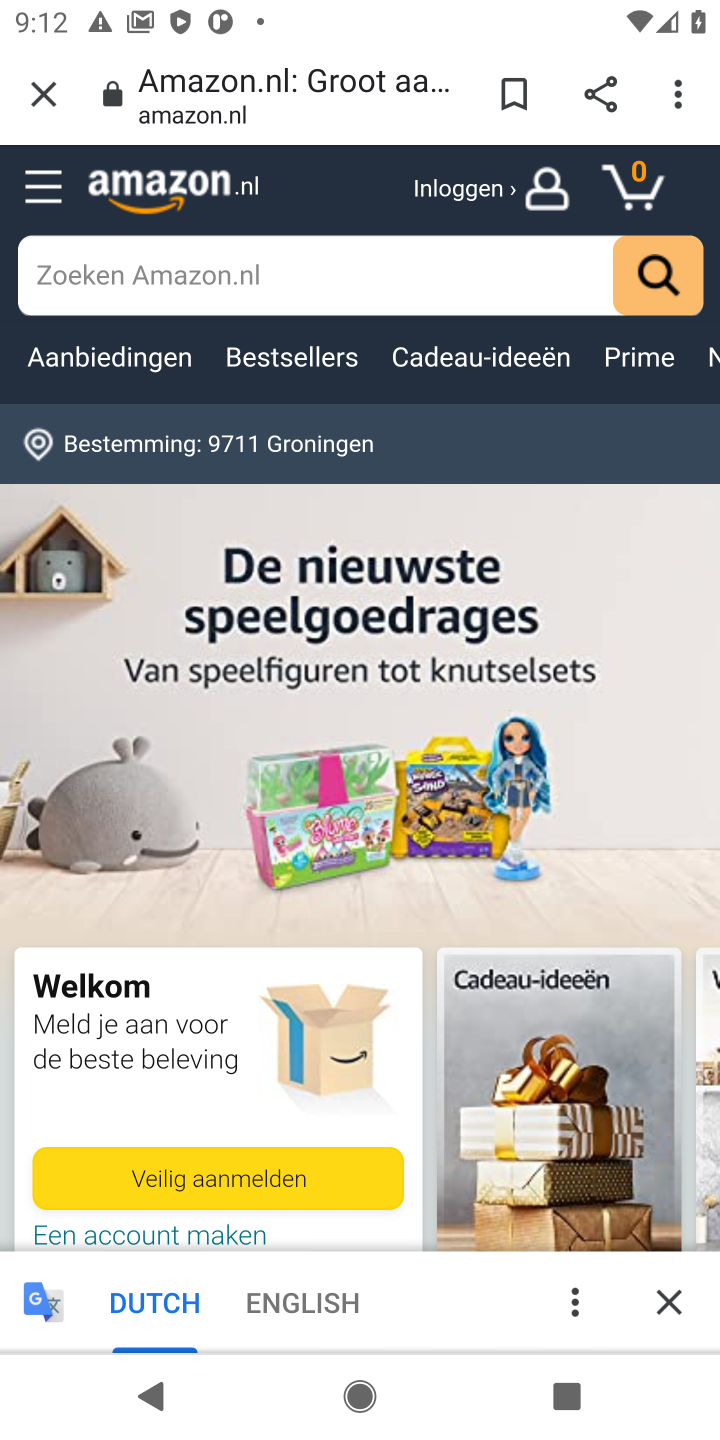
Step 32: click (668, 1299)
Your task to perform on an android device: Add lg ultragear to the cart on amazon, then select checkout. Image 33: 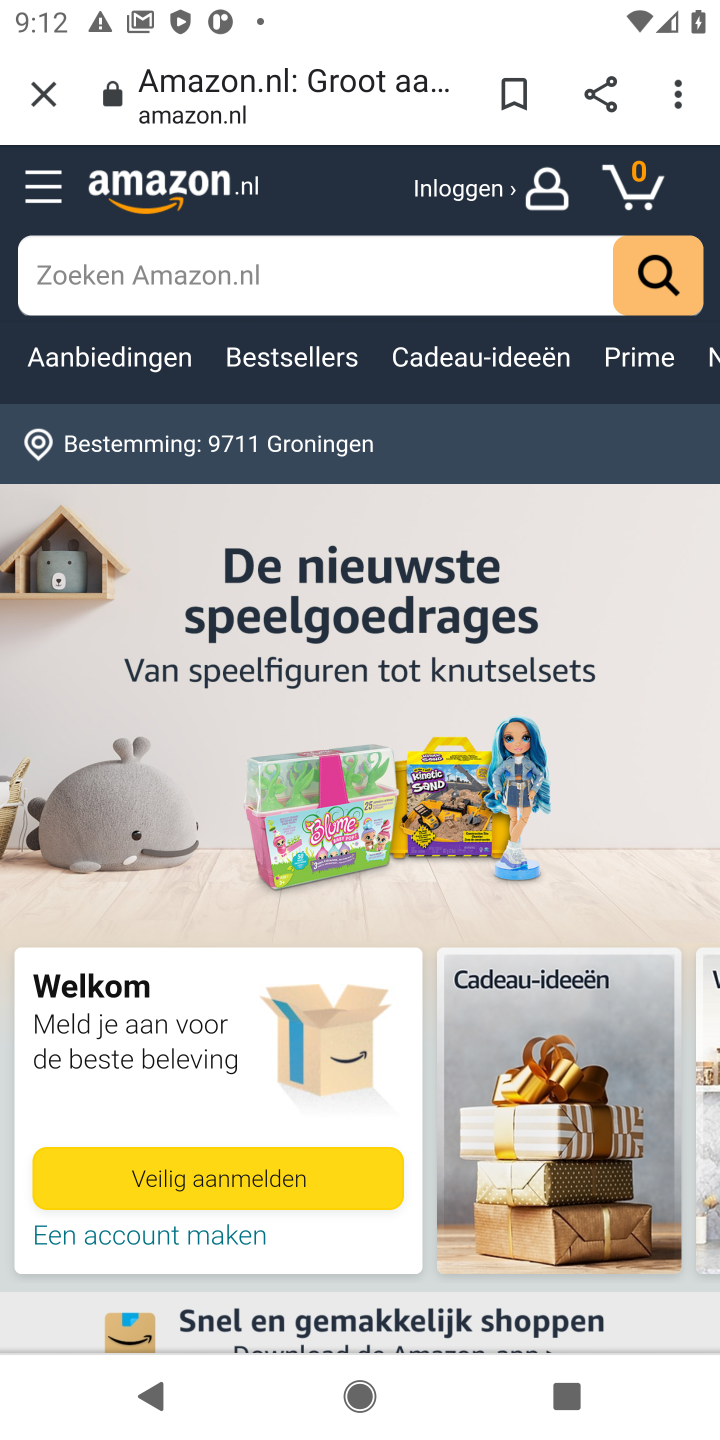
Step 33: click (374, 275)
Your task to perform on an android device: Add lg ultragear to the cart on amazon, then select checkout. Image 34: 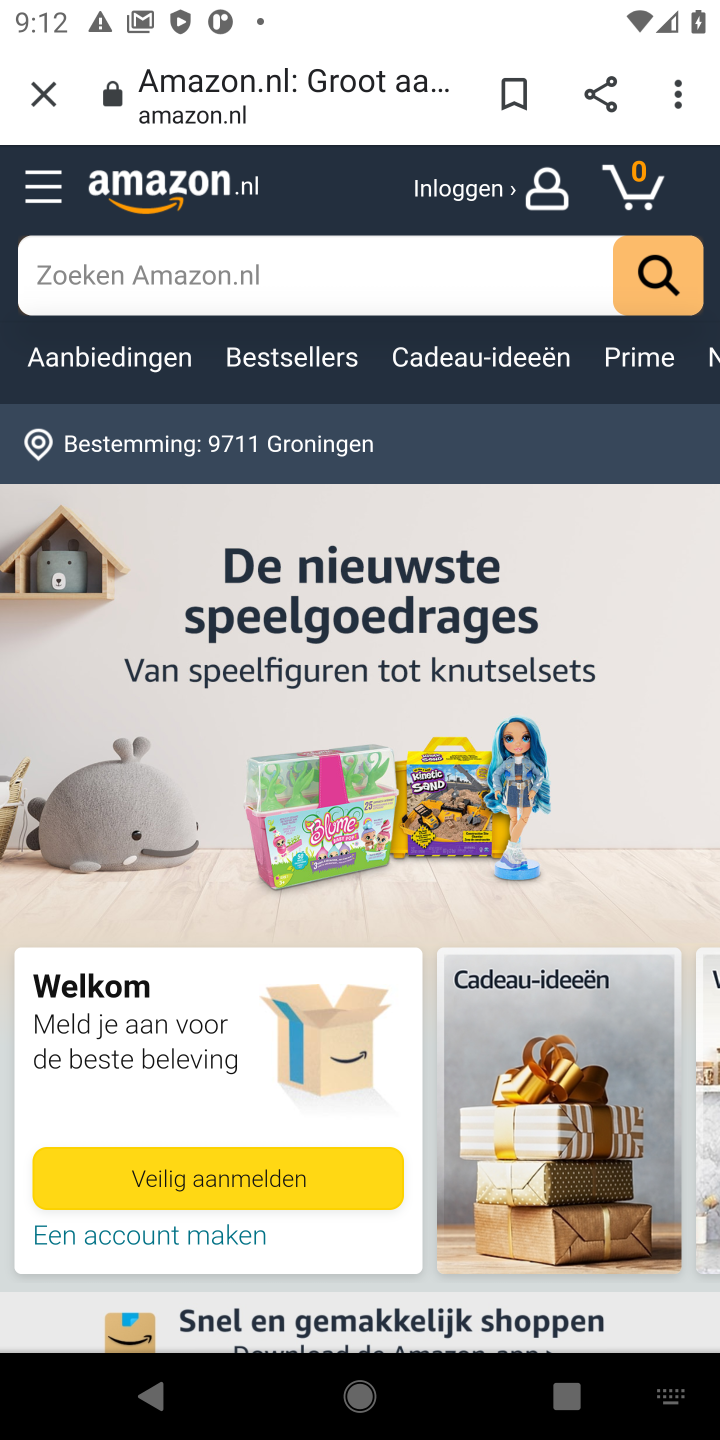
Step 34: type " lg ultragear "
Your task to perform on an android device: Add lg ultragear to the cart on amazon, then select checkout. Image 35: 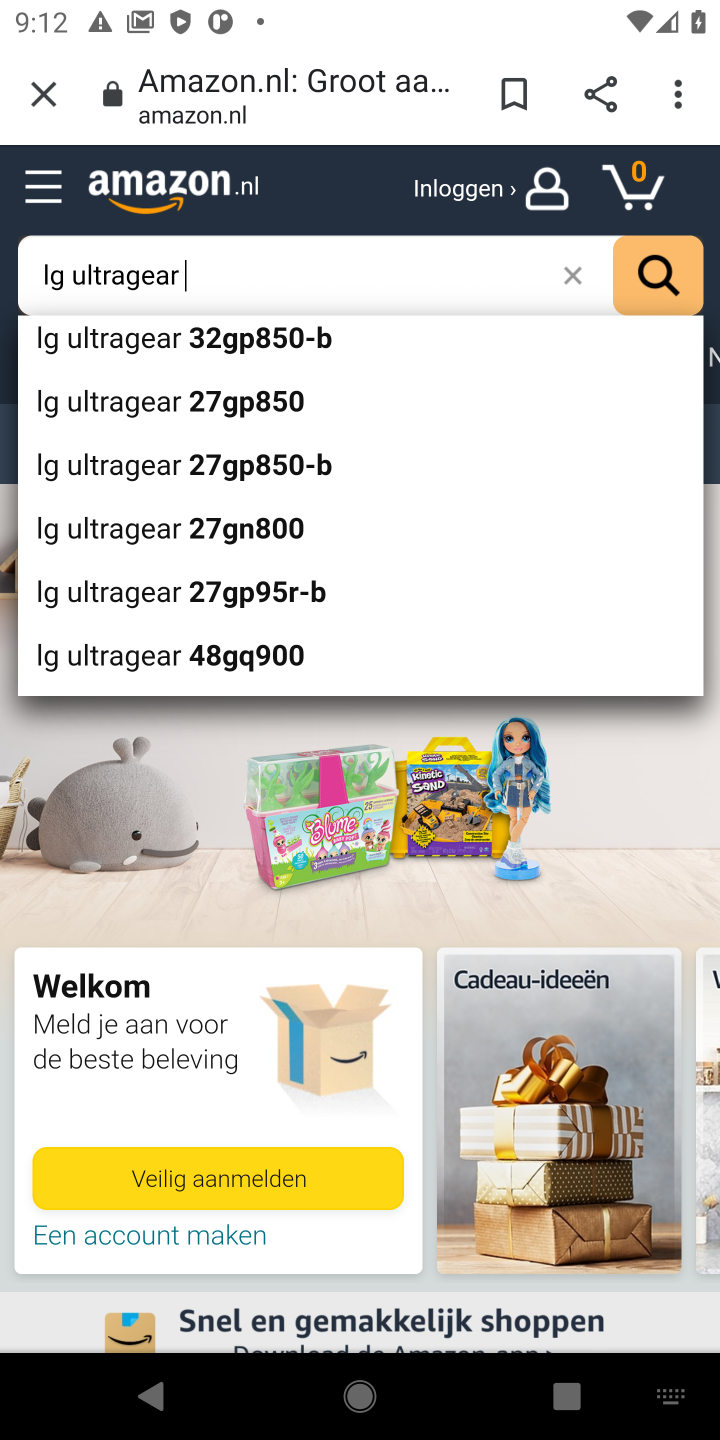
Step 35: click (135, 340)
Your task to perform on an android device: Add lg ultragear to the cart on amazon, then select checkout. Image 36: 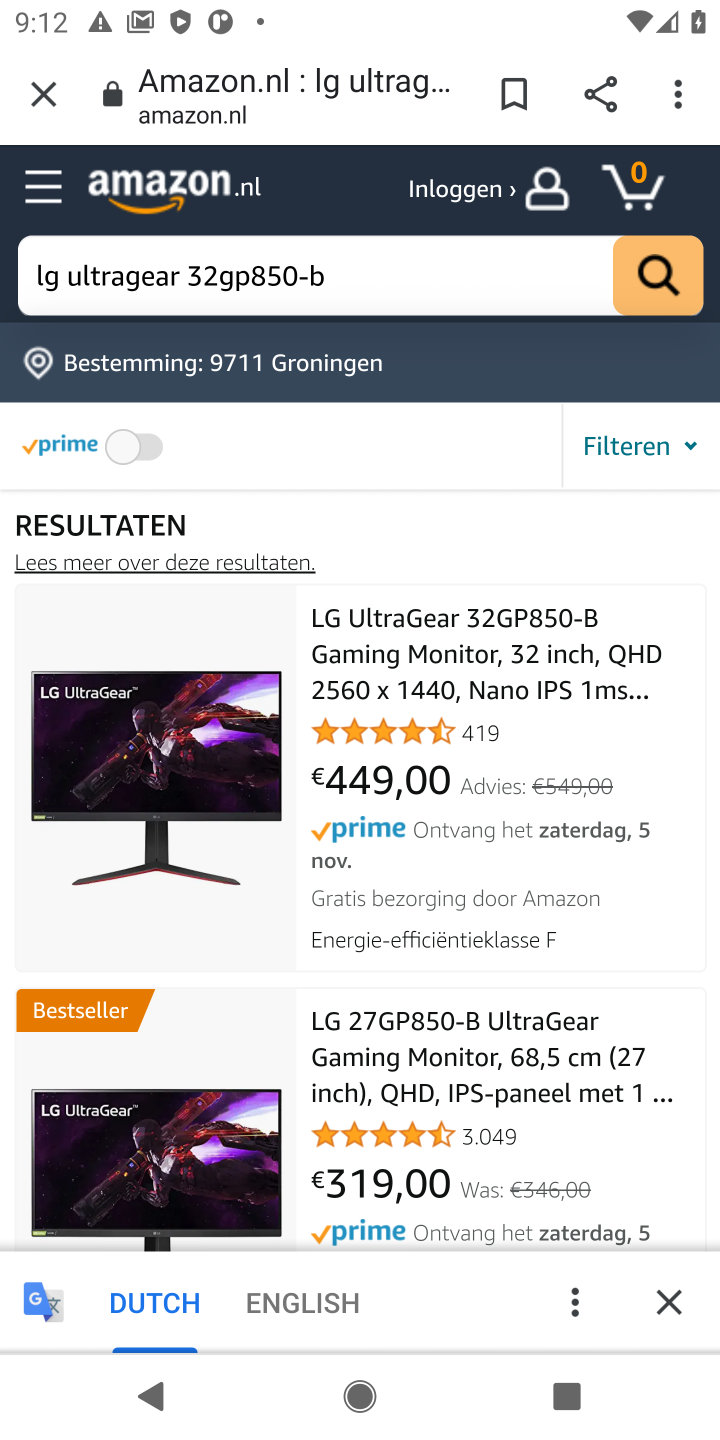
Step 36: click (455, 652)
Your task to perform on an android device: Add lg ultragear to the cart on amazon, then select checkout. Image 37: 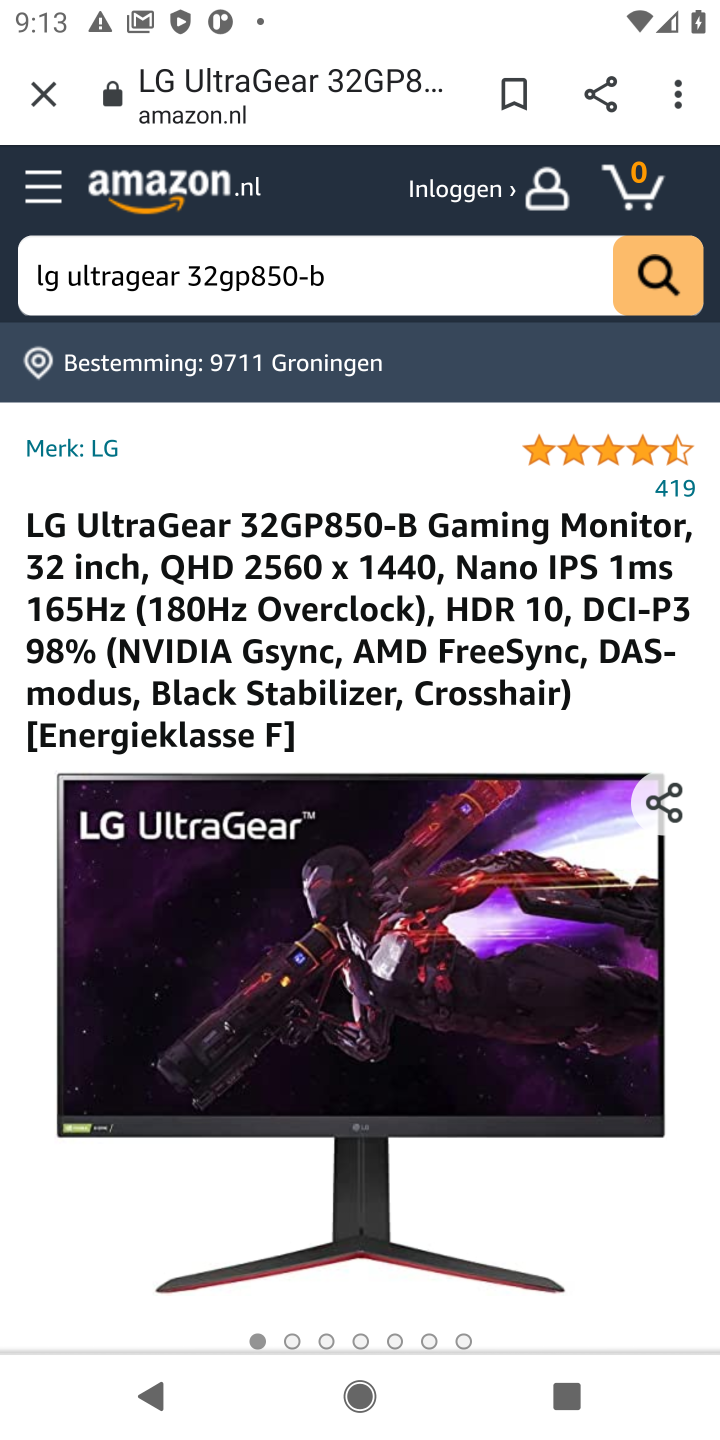
Step 37: drag from (491, 1106) to (519, 421)
Your task to perform on an android device: Add lg ultragear to the cart on amazon, then select checkout. Image 38: 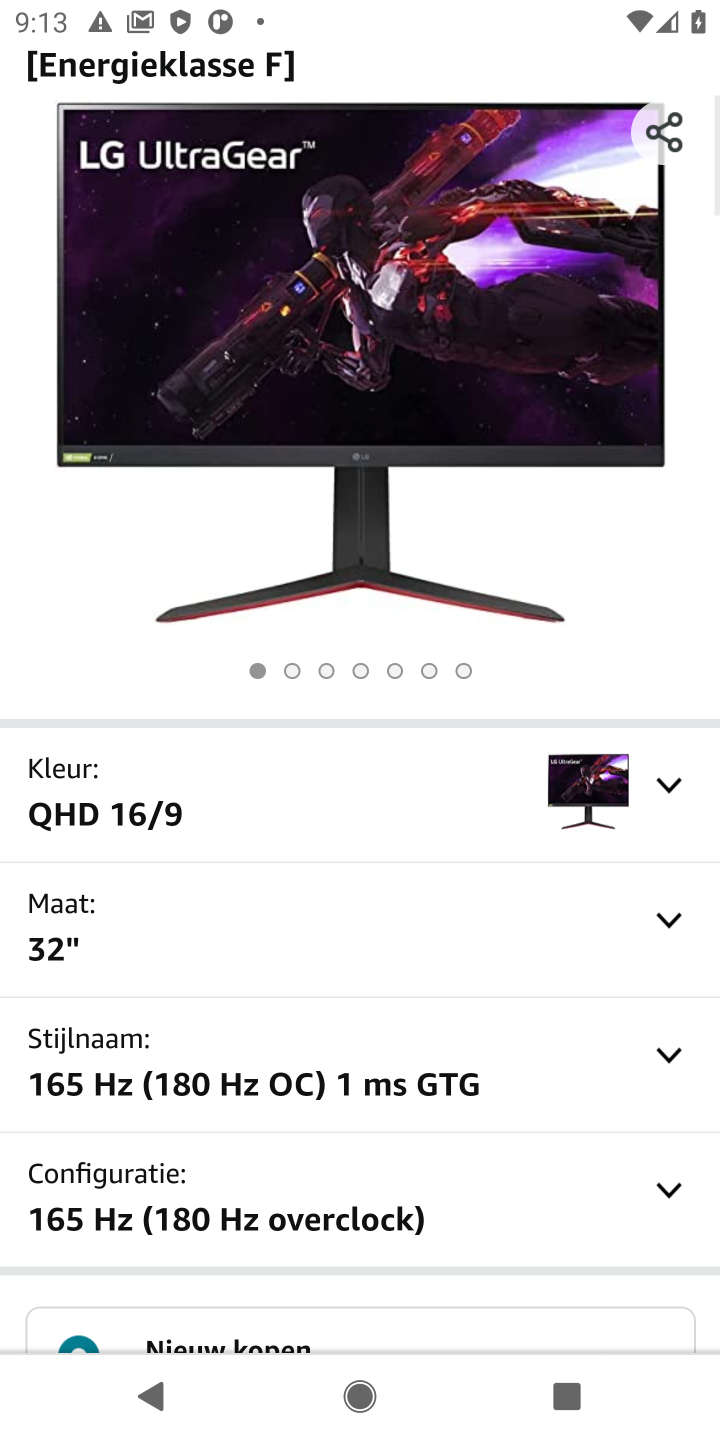
Step 38: drag from (342, 1098) to (444, 476)
Your task to perform on an android device: Add lg ultragear to the cart on amazon, then select checkout. Image 39: 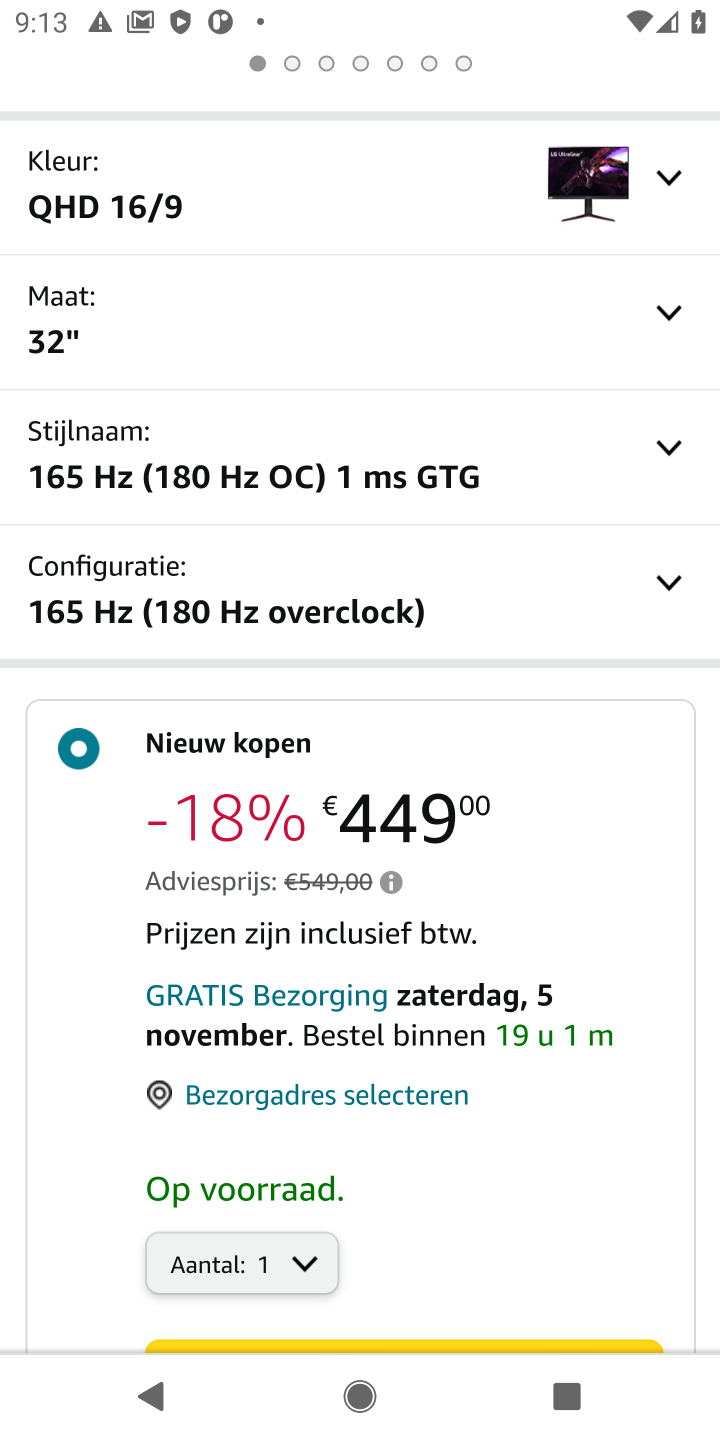
Step 39: drag from (427, 1165) to (475, 463)
Your task to perform on an android device: Add lg ultragear to the cart on amazon, then select checkout. Image 40: 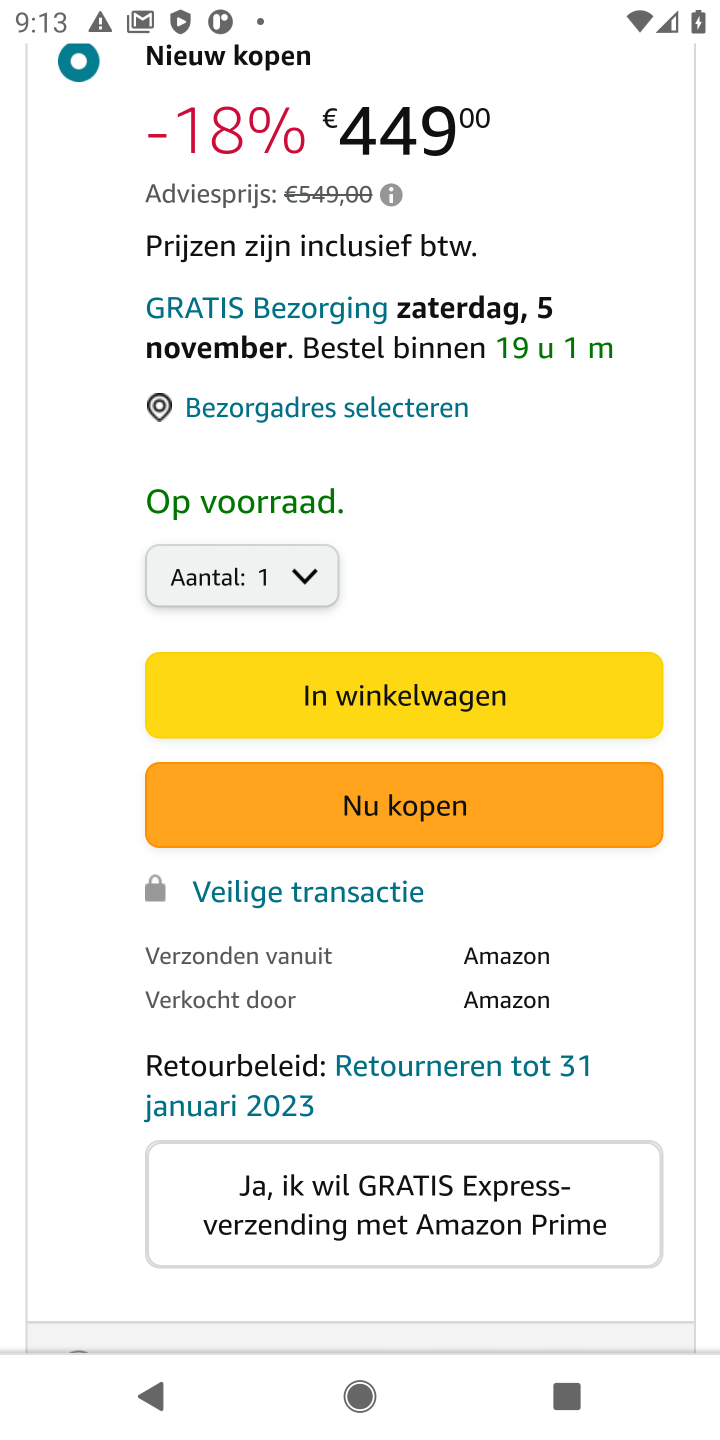
Step 40: click (446, 676)
Your task to perform on an android device: Add lg ultragear to the cart on amazon, then select checkout. Image 41: 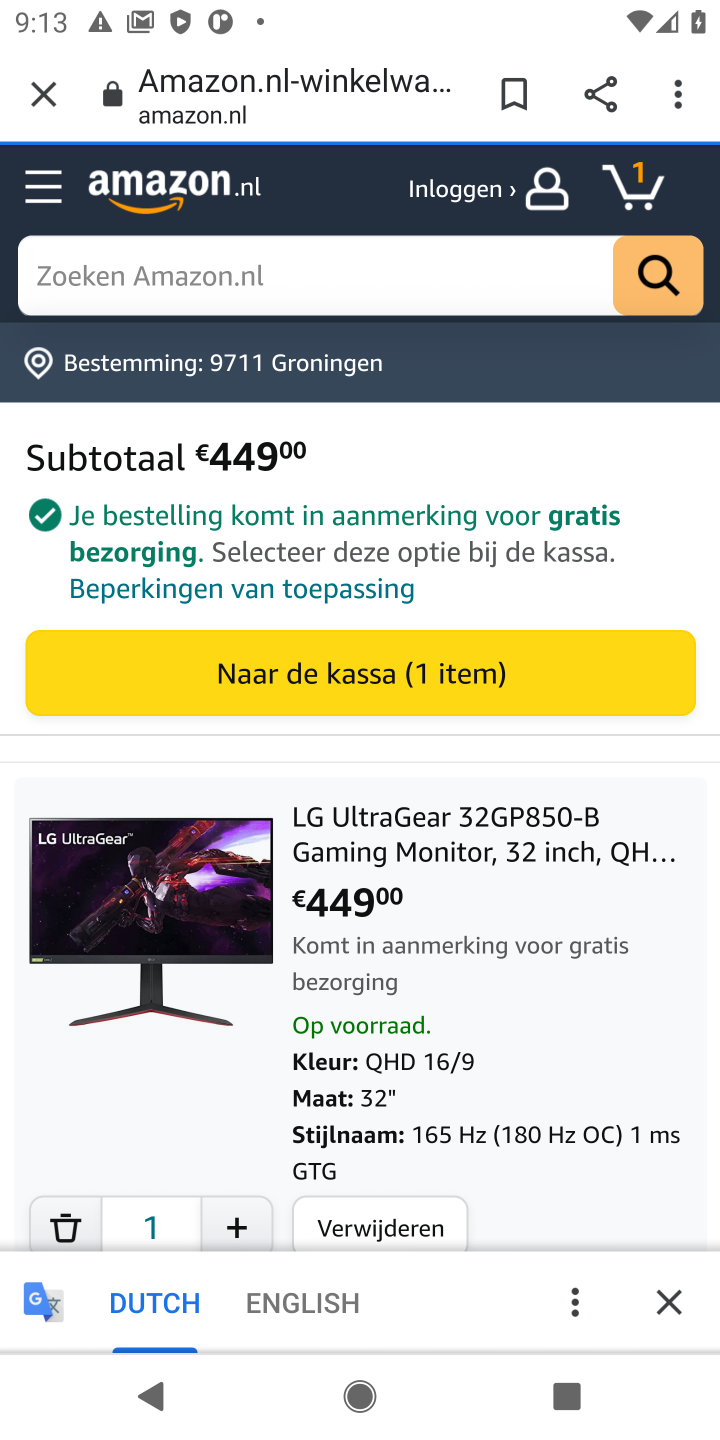
Step 41: task complete